Your task to perform on an android device: What's on the menu at Chick-fil-A? Image 0: 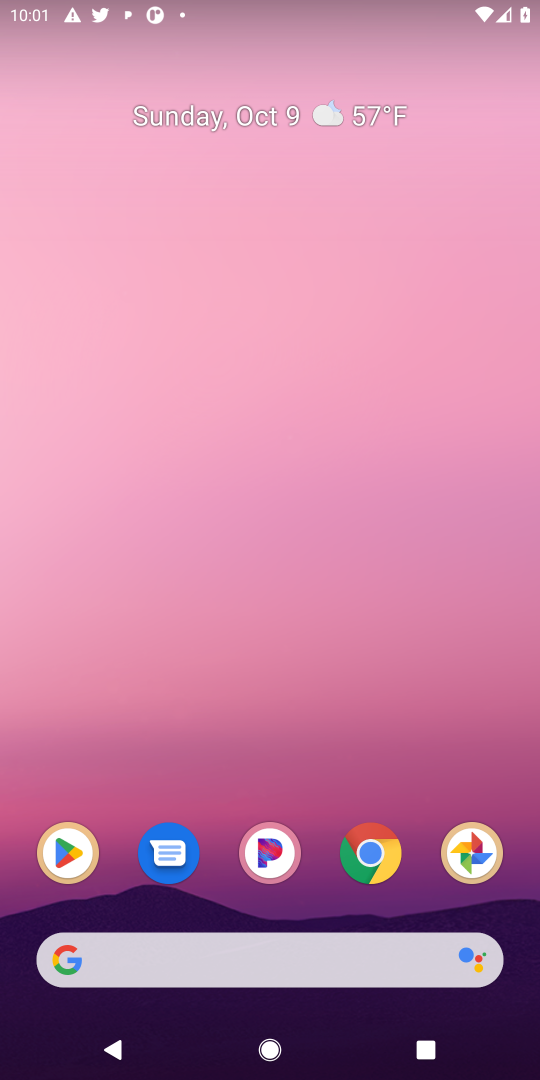
Step 0: click (369, 837)
Your task to perform on an android device: What's on the menu at Chick-fil-A? Image 1: 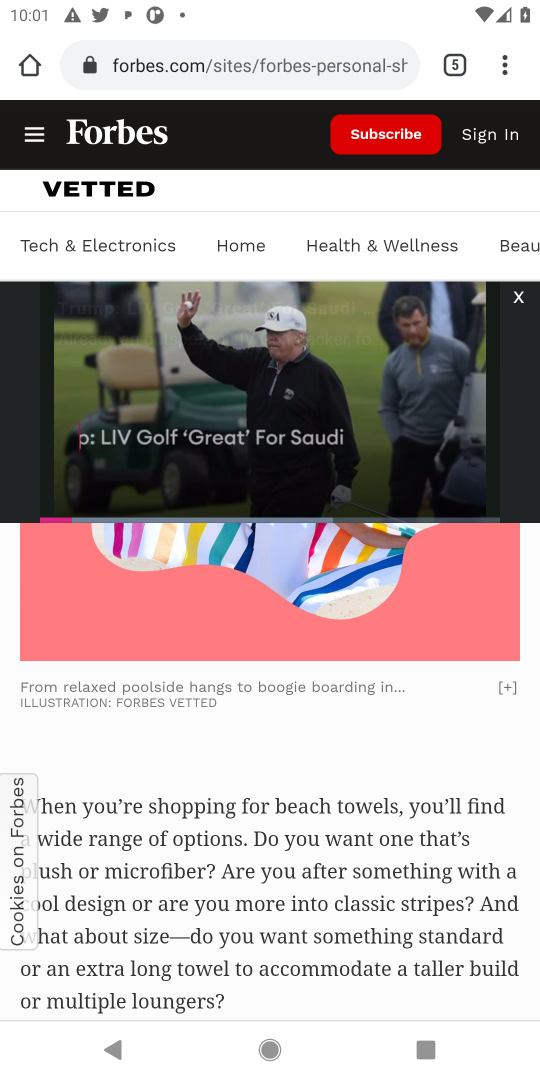
Step 1: click (266, 56)
Your task to perform on an android device: What's on the menu at Chick-fil-A? Image 2: 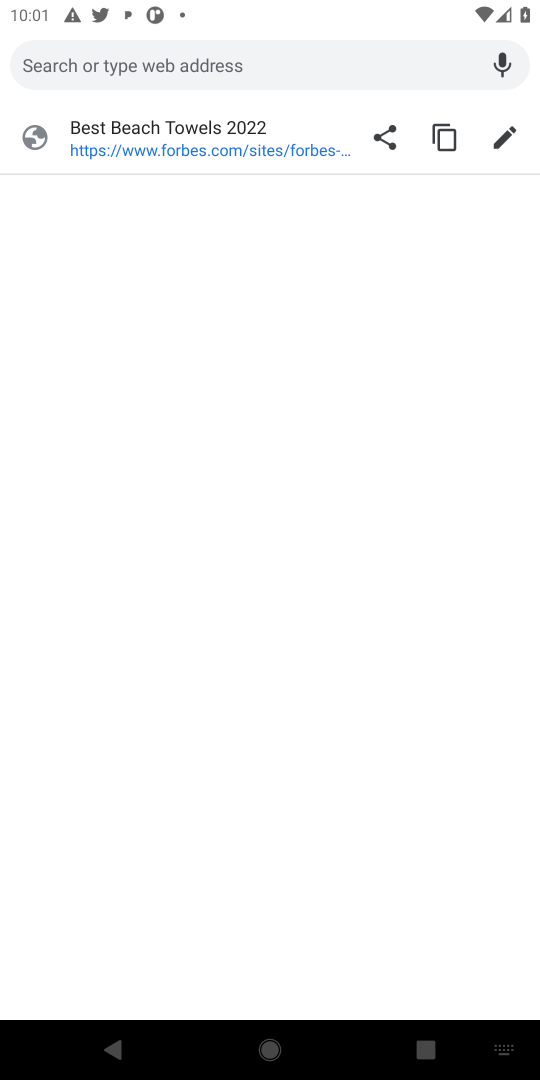
Step 2: type "What's on the menu at Chick-fil-A?"
Your task to perform on an android device: What's on the menu at Chick-fil-A? Image 3: 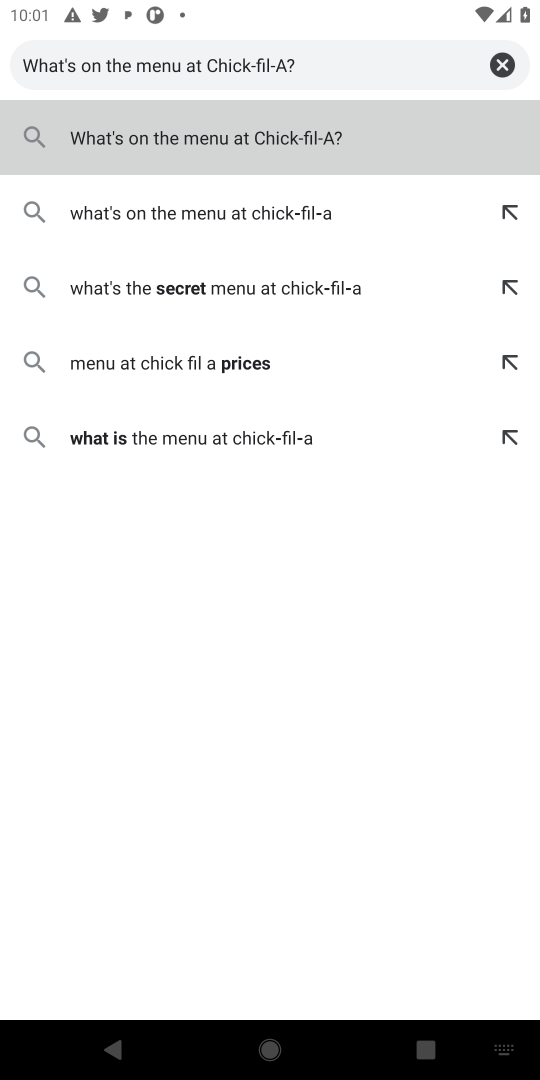
Step 3: type ""
Your task to perform on an android device: What's on the menu at Chick-fil-A? Image 4: 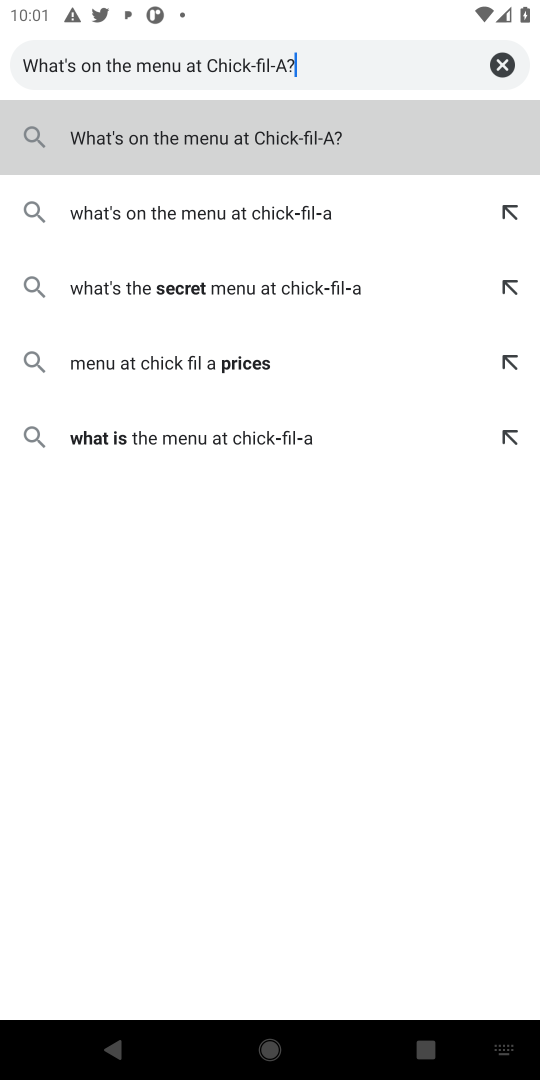
Step 4: press enter
Your task to perform on an android device: What's on the menu at Chick-fil-A? Image 5: 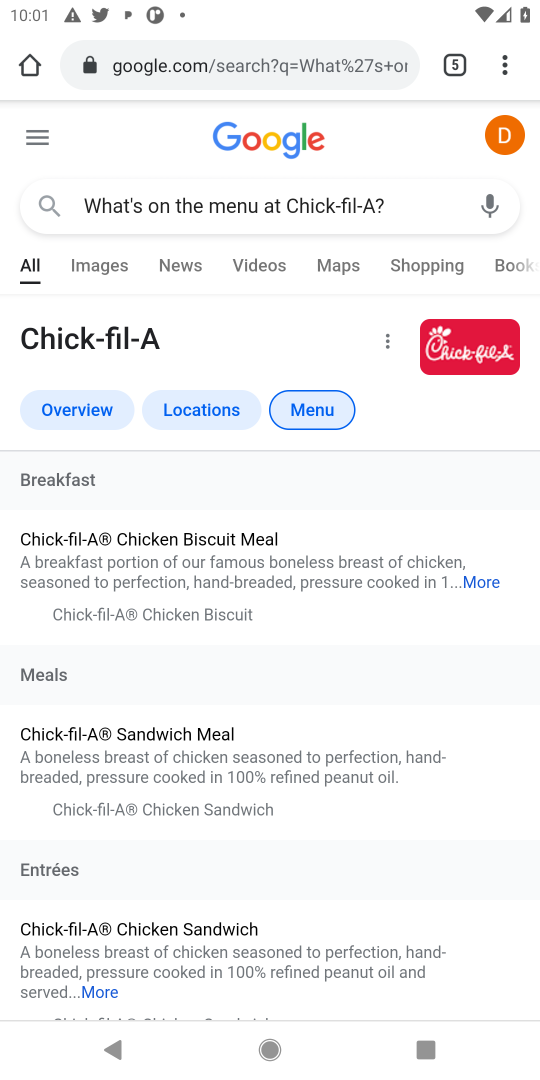
Step 5: drag from (185, 725) to (160, 414)
Your task to perform on an android device: What's on the menu at Chick-fil-A? Image 6: 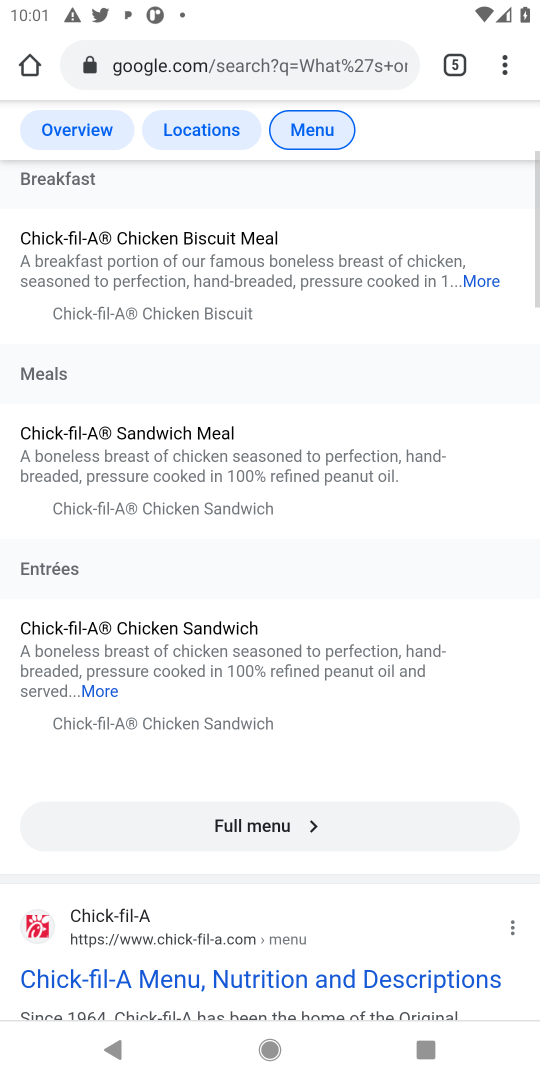
Step 6: drag from (205, 688) to (216, 490)
Your task to perform on an android device: What's on the menu at Chick-fil-A? Image 7: 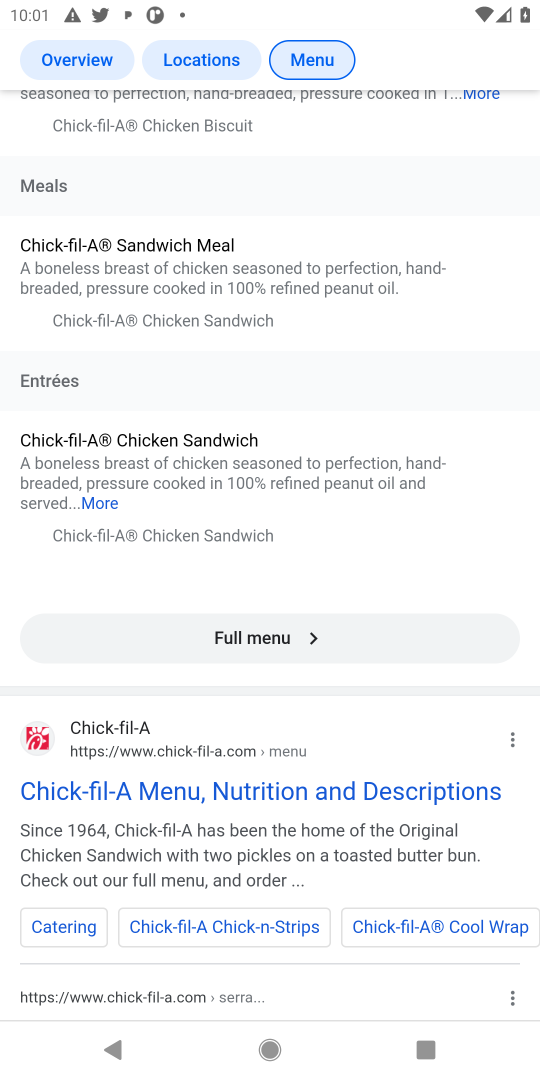
Step 7: click (238, 656)
Your task to perform on an android device: What's on the menu at Chick-fil-A? Image 8: 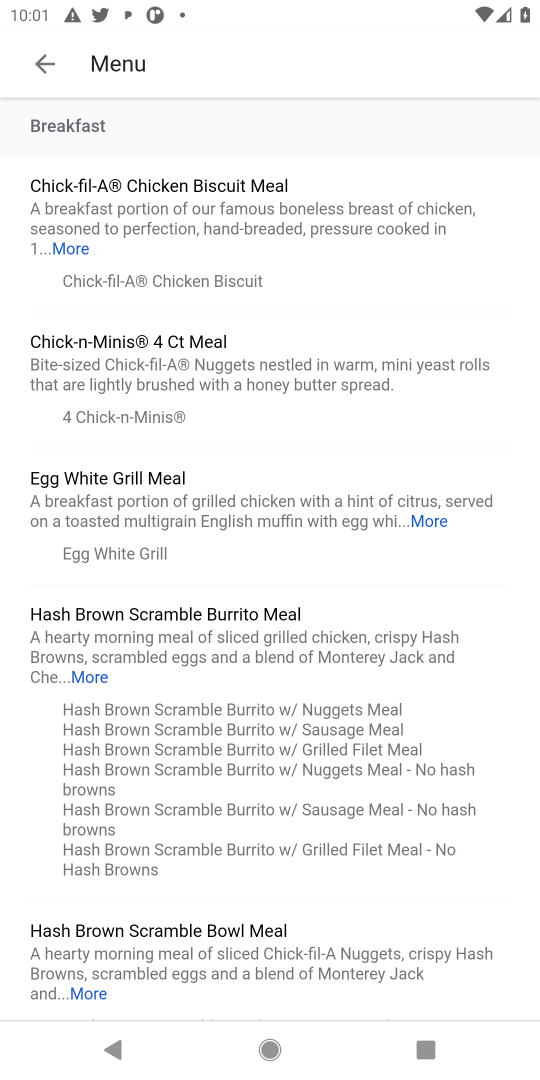
Step 8: drag from (266, 685) to (247, 283)
Your task to perform on an android device: What's on the menu at Chick-fil-A? Image 9: 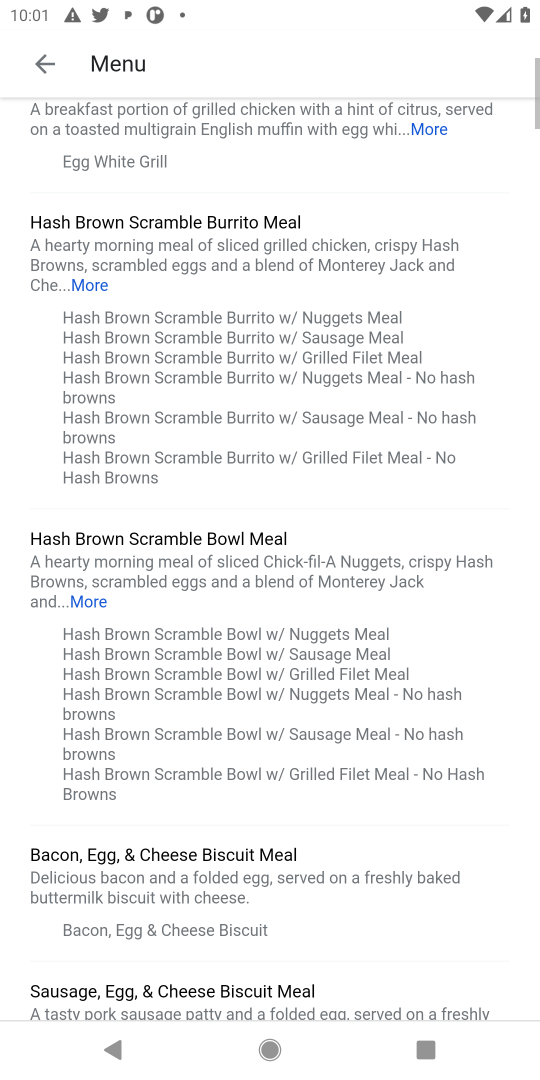
Step 9: drag from (351, 493) to (376, 319)
Your task to perform on an android device: What's on the menu at Chick-fil-A? Image 10: 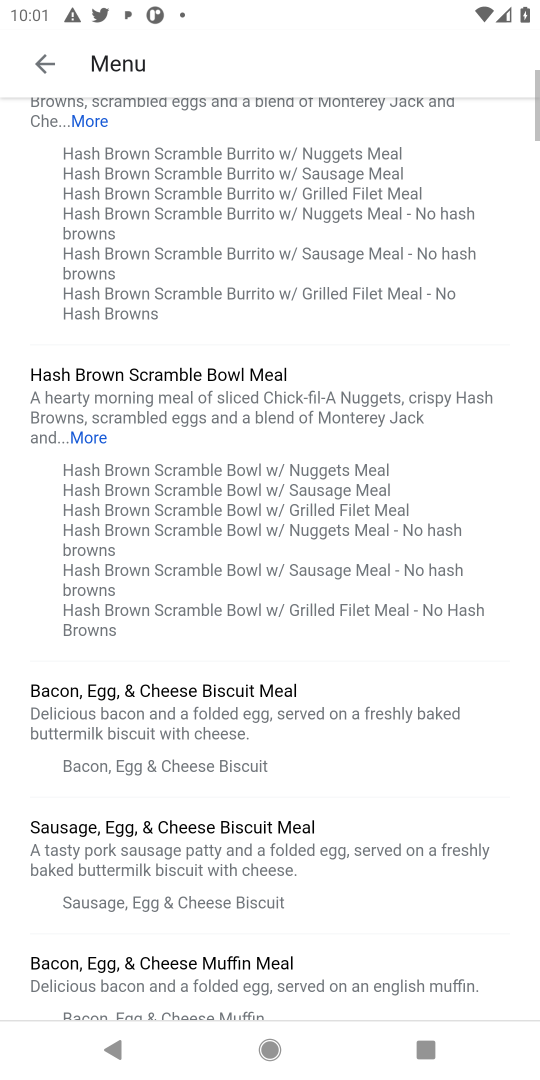
Step 10: drag from (357, 541) to (345, 370)
Your task to perform on an android device: What's on the menu at Chick-fil-A? Image 11: 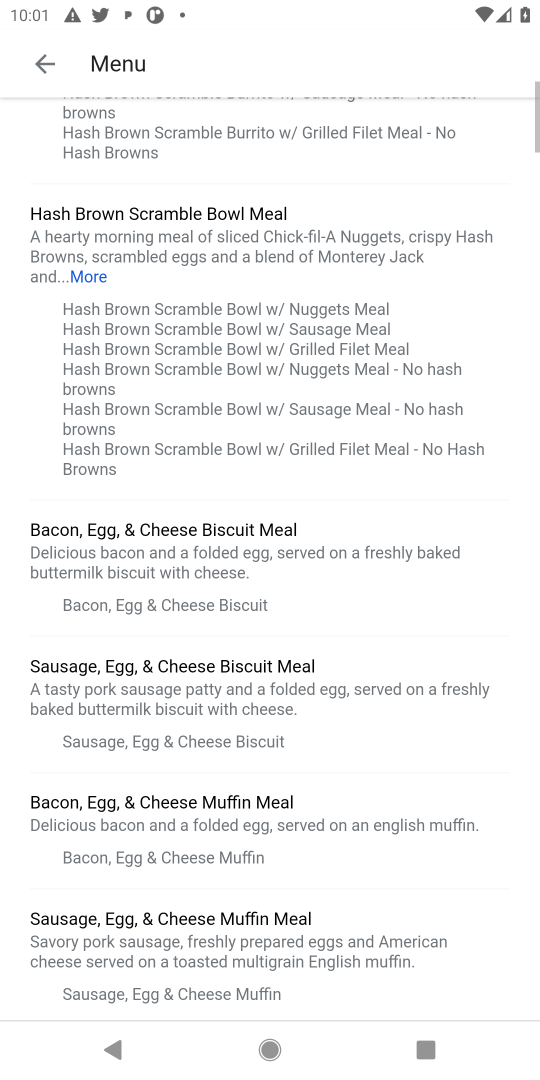
Step 11: drag from (331, 713) to (313, 435)
Your task to perform on an android device: What's on the menu at Chick-fil-A? Image 12: 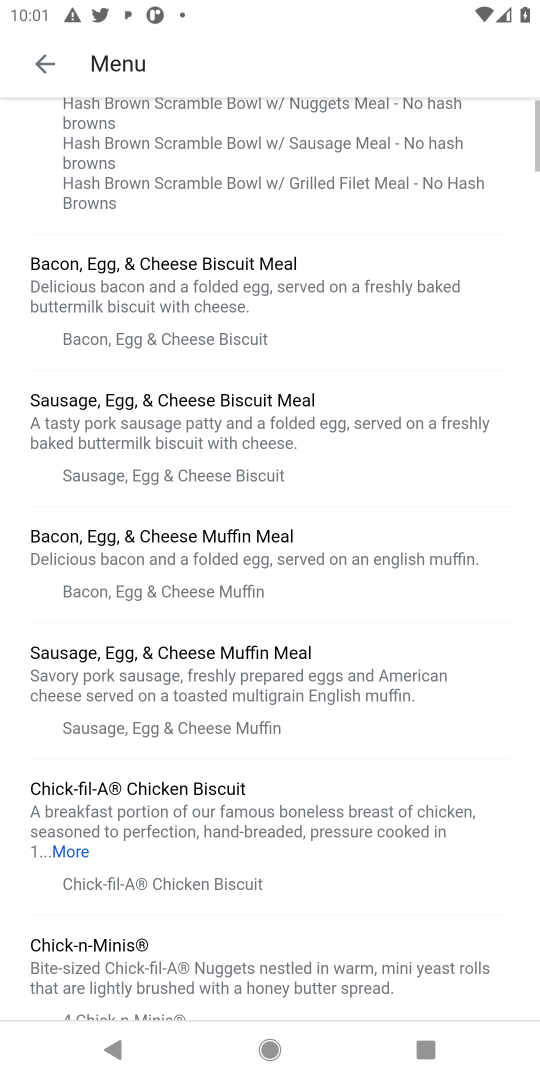
Step 12: drag from (316, 719) to (335, 482)
Your task to perform on an android device: What's on the menu at Chick-fil-A? Image 13: 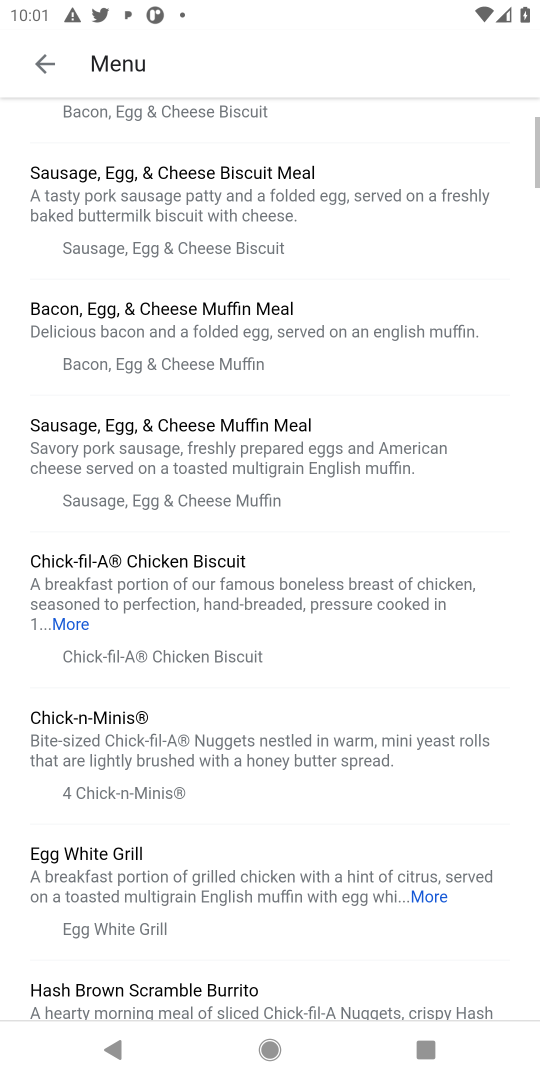
Step 13: drag from (309, 703) to (284, 255)
Your task to perform on an android device: What's on the menu at Chick-fil-A? Image 14: 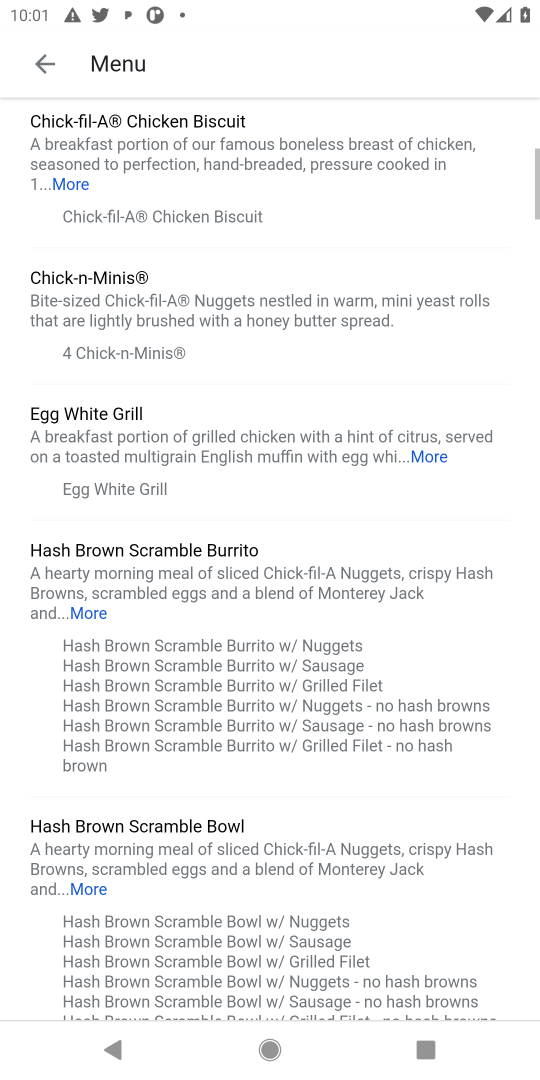
Step 14: drag from (349, 668) to (325, 492)
Your task to perform on an android device: What's on the menu at Chick-fil-A? Image 15: 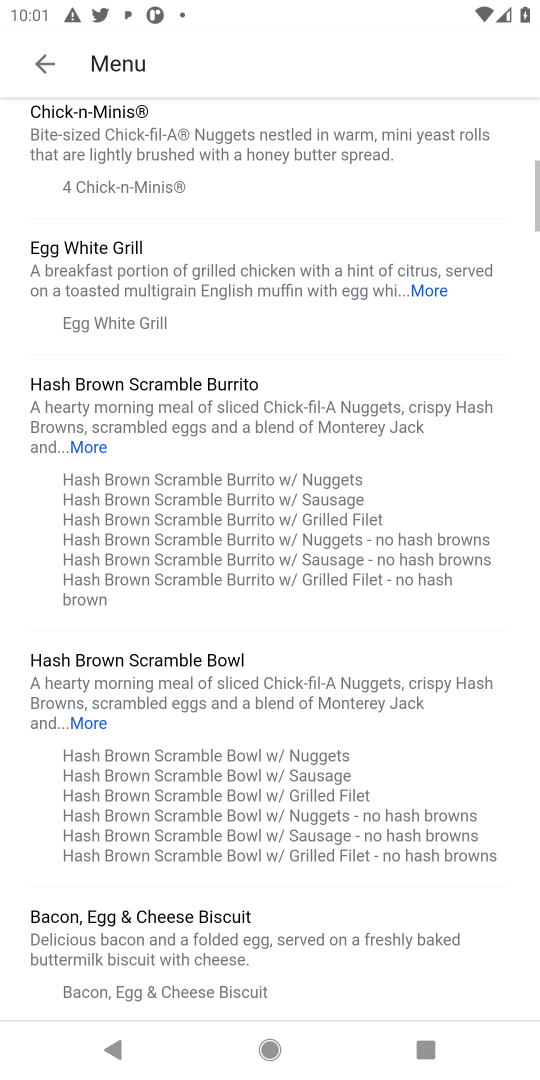
Step 15: drag from (293, 611) to (288, 412)
Your task to perform on an android device: What's on the menu at Chick-fil-A? Image 16: 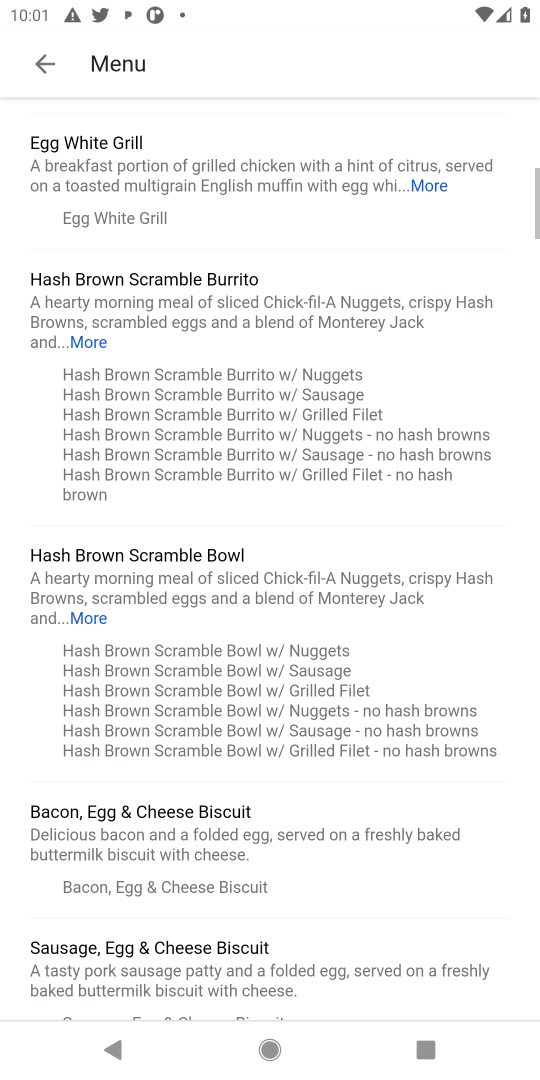
Step 16: drag from (271, 604) to (246, 405)
Your task to perform on an android device: What's on the menu at Chick-fil-A? Image 17: 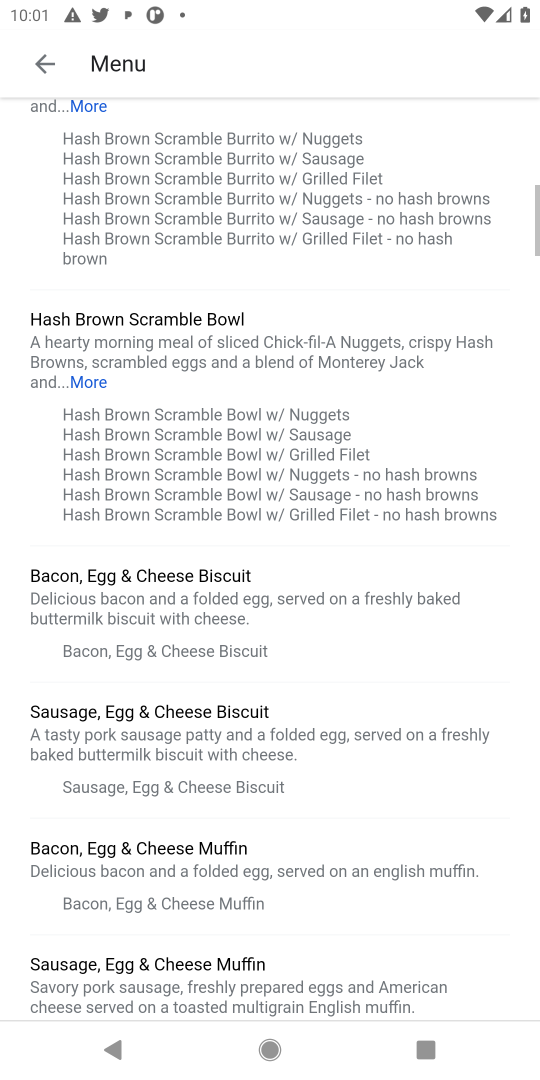
Step 17: drag from (270, 587) to (237, 398)
Your task to perform on an android device: What's on the menu at Chick-fil-A? Image 18: 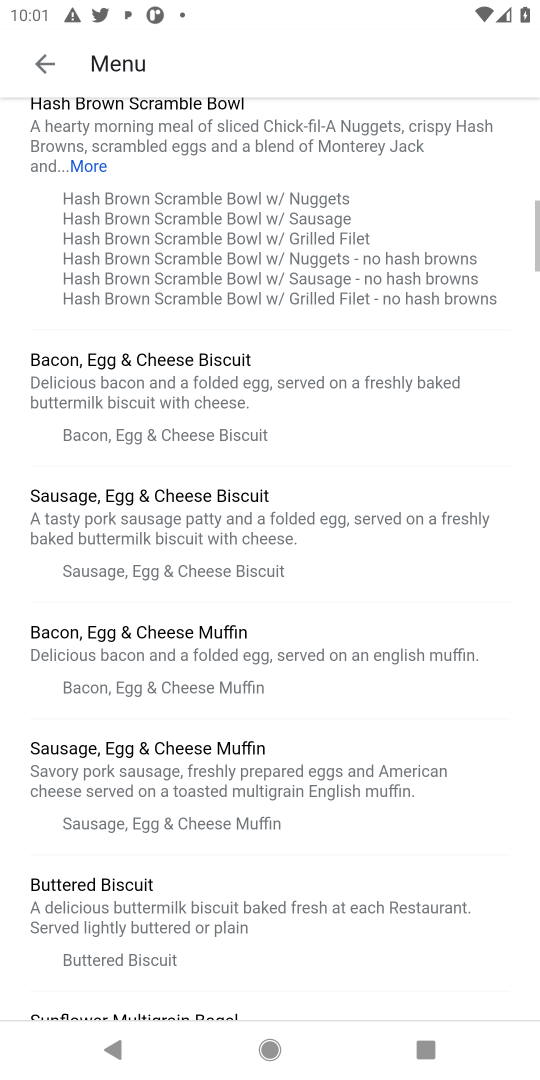
Step 18: drag from (249, 518) to (223, 371)
Your task to perform on an android device: What's on the menu at Chick-fil-A? Image 19: 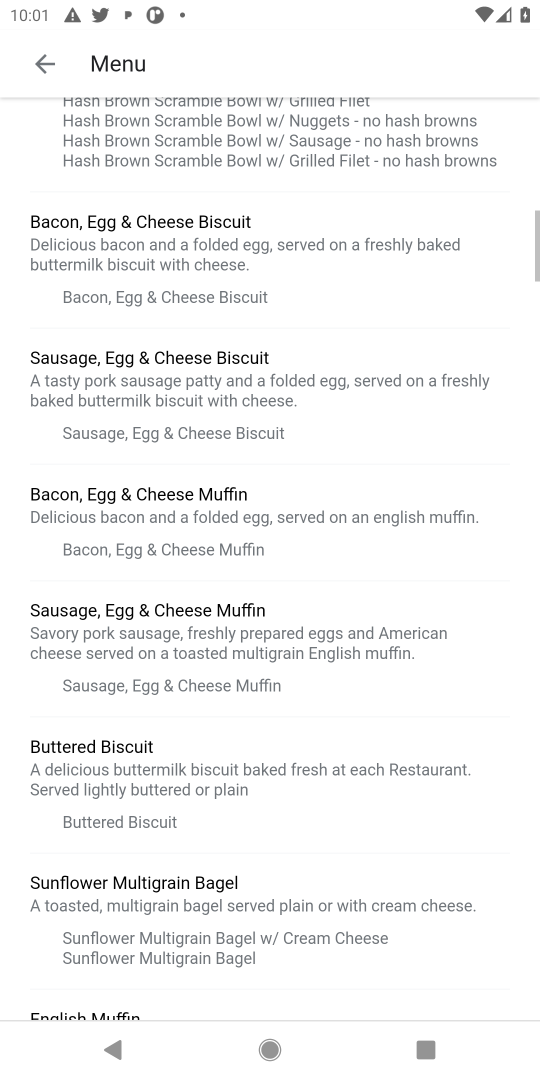
Step 19: drag from (280, 552) to (267, 301)
Your task to perform on an android device: What's on the menu at Chick-fil-A? Image 20: 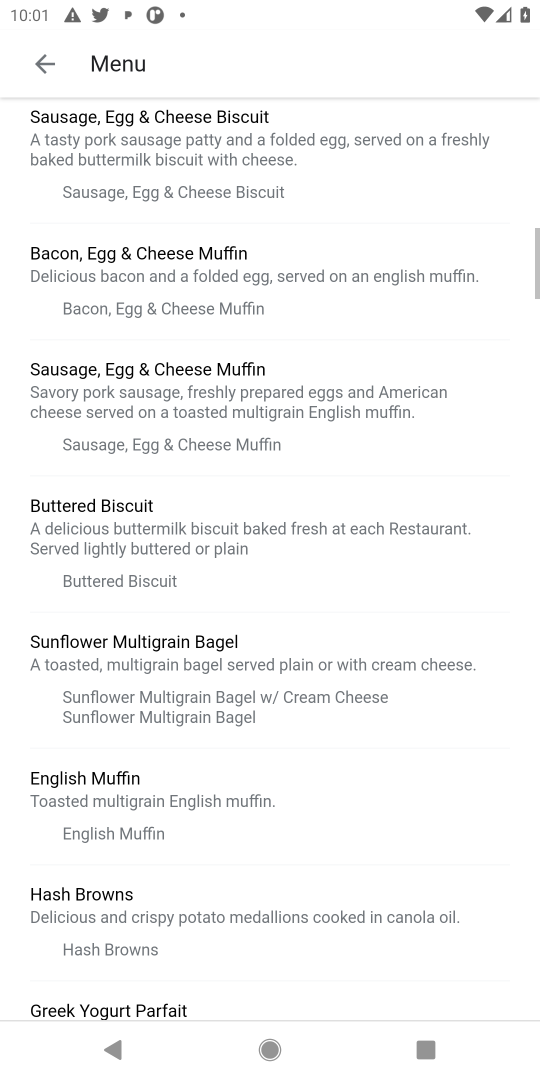
Step 20: drag from (409, 544) to (372, 388)
Your task to perform on an android device: What's on the menu at Chick-fil-A? Image 21: 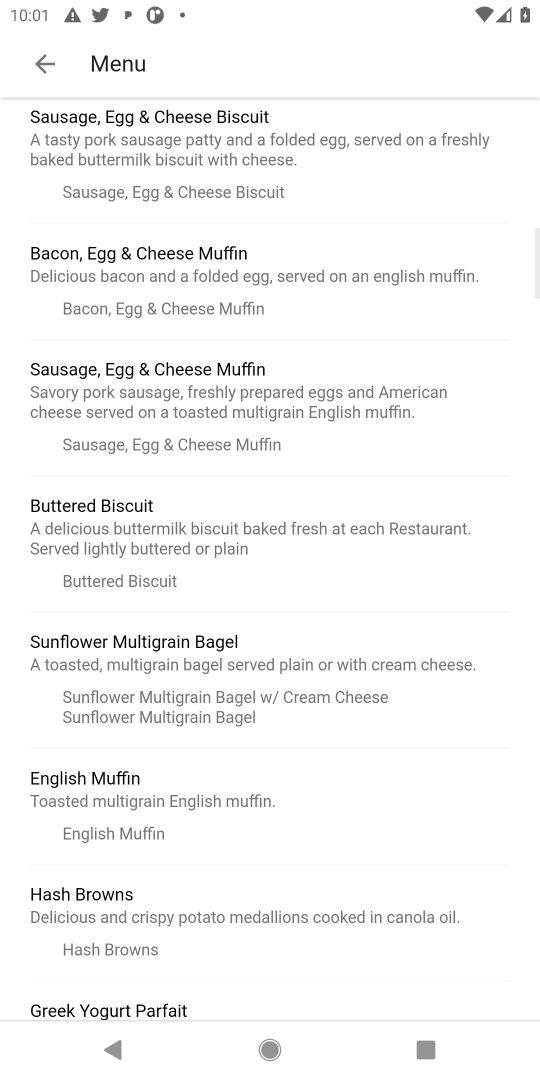
Step 21: drag from (377, 706) to (353, 379)
Your task to perform on an android device: What's on the menu at Chick-fil-A? Image 22: 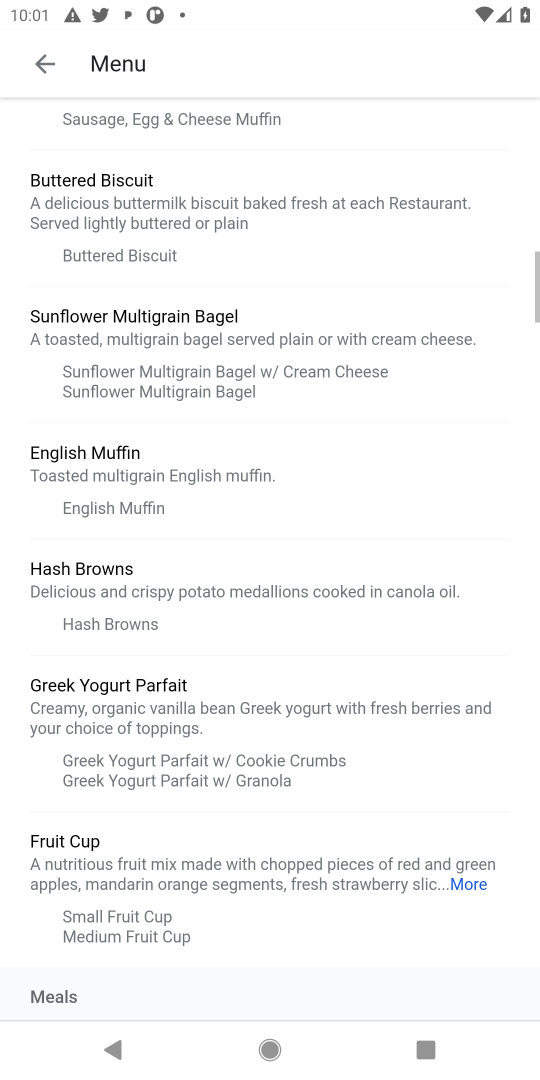
Step 22: drag from (427, 618) to (398, 392)
Your task to perform on an android device: What's on the menu at Chick-fil-A? Image 23: 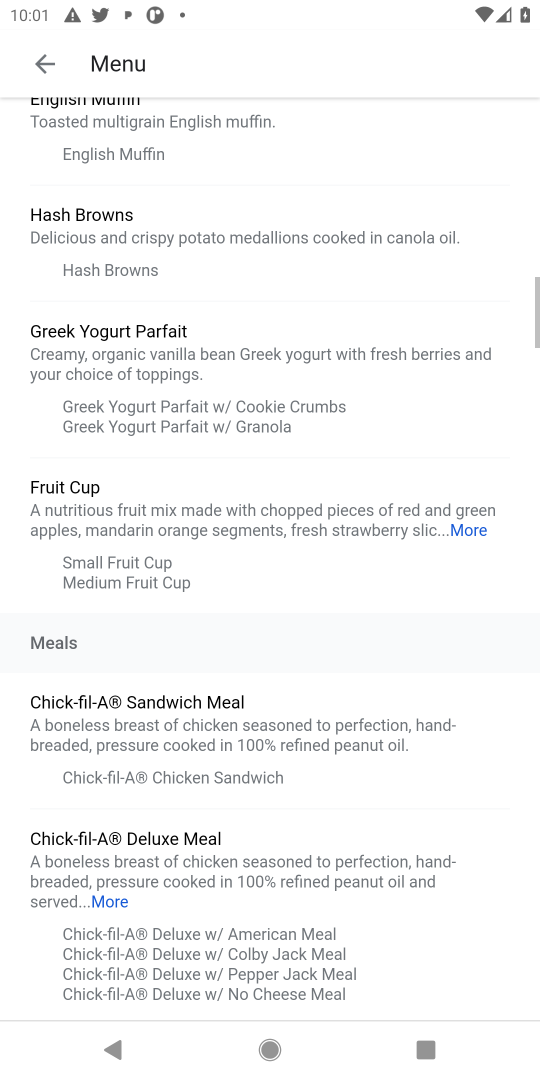
Step 23: drag from (489, 592) to (444, 322)
Your task to perform on an android device: What's on the menu at Chick-fil-A? Image 24: 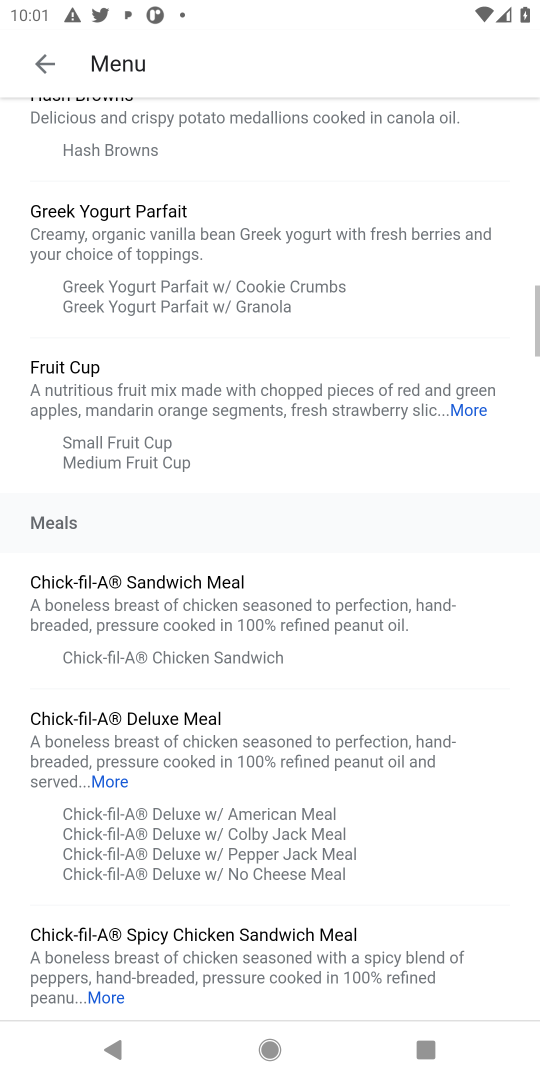
Step 24: drag from (333, 381) to (442, 843)
Your task to perform on an android device: What's on the menu at Chick-fil-A? Image 25: 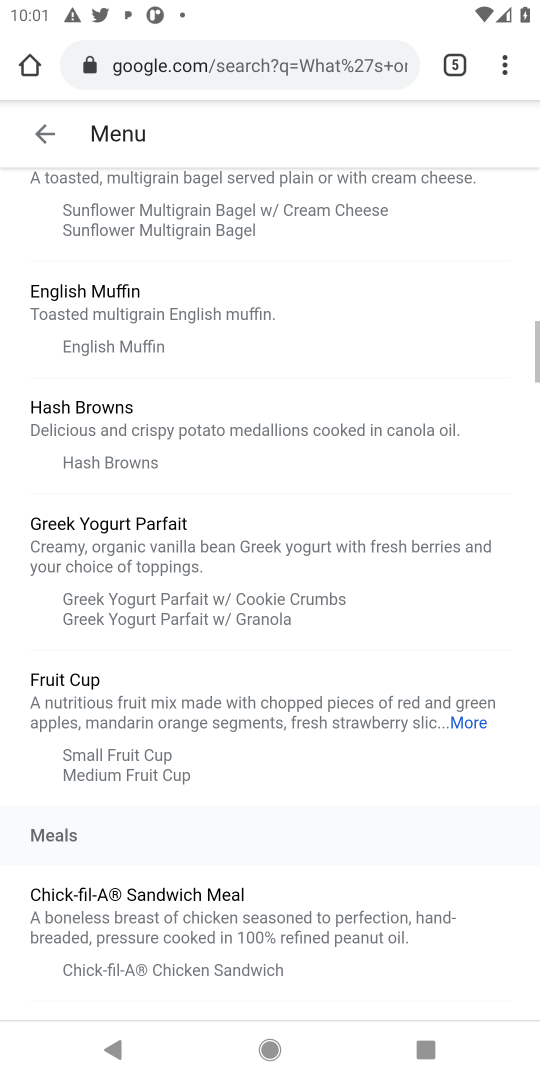
Step 25: drag from (316, 306) to (360, 645)
Your task to perform on an android device: What's on the menu at Chick-fil-A? Image 26: 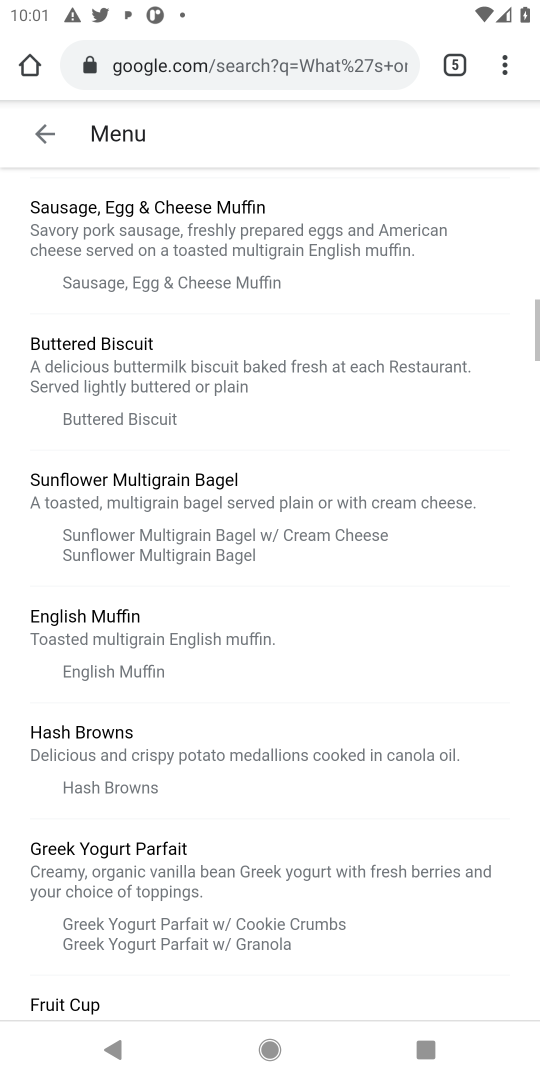
Step 26: drag from (277, 306) to (339, 659)
Your task to perform on an android device: What's on the menu at Chick-fil-A? Image 27: 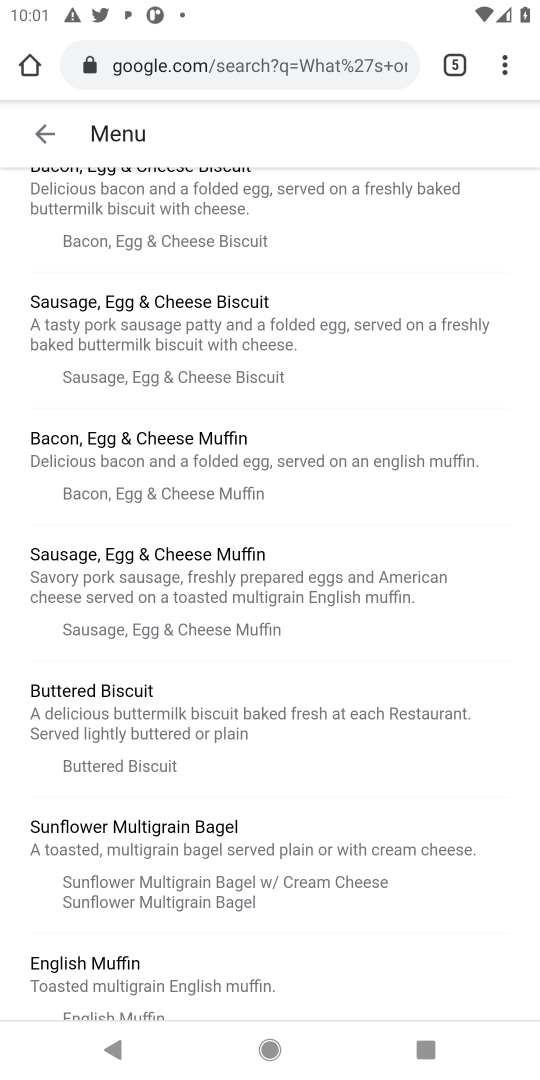
Step 27: drag from (256, 253) to (379, 661)
Your task to perform on an android device: What's on the menu at Chick-fil-A? Image 28: 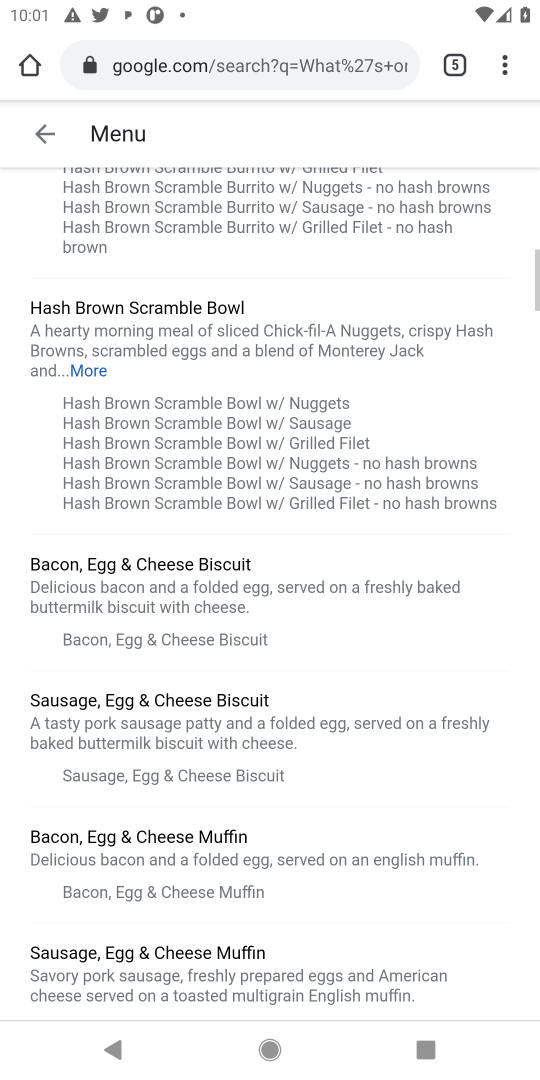
Step 28: drag from (220, 388) to (272, 632)
Your task to perform on an android device: What's on the menu at Chick-fil-A? Image 29: 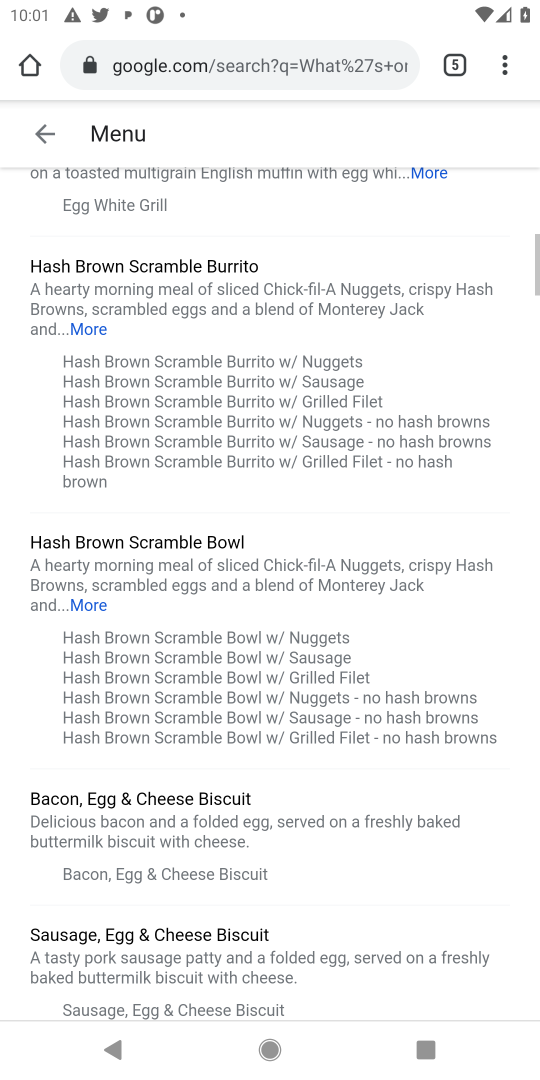
Step 29: drag from (216, 443) to (241, 587)
Your task to perform on an android device: What's on the menu at Chick-fil-A? Image 30: 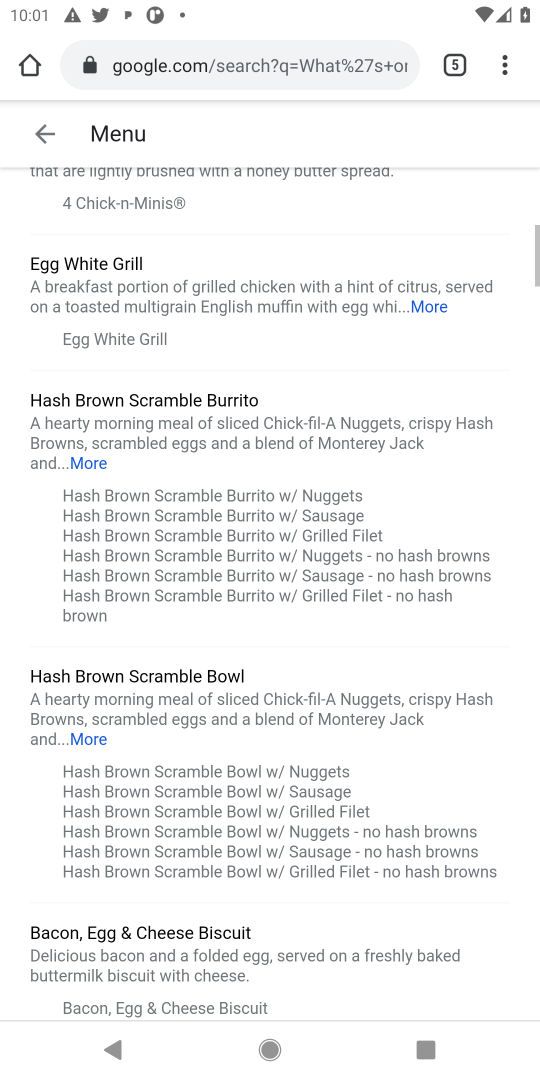
Step 30: drag from (241, 571) to (241, 628)
Your task to perform on an android device: What's on the menu at Chick-fil-A? Image 31: 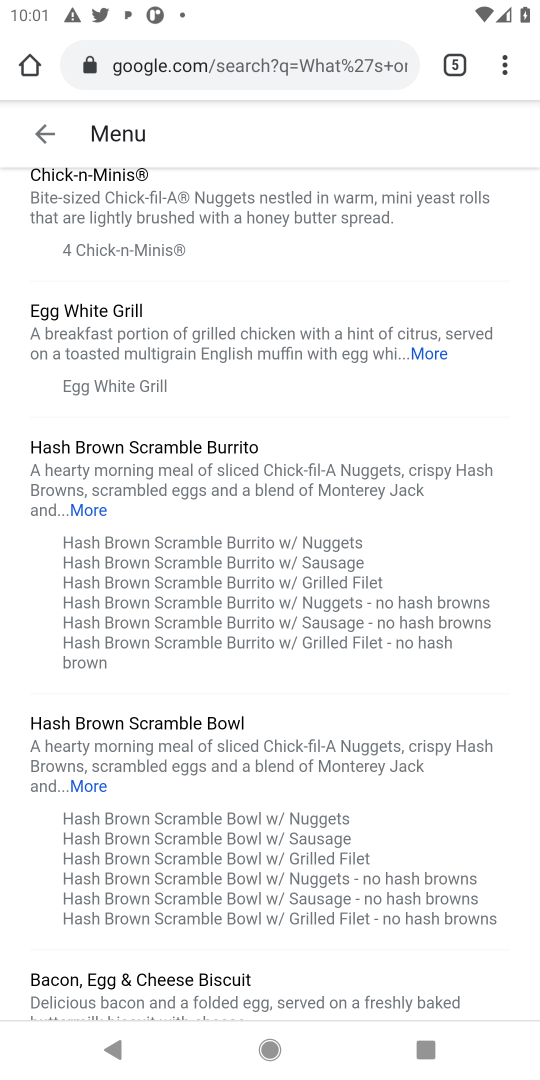
Step 31: click (299, 759)
Your task to perform on an android device: What's on the menu at Chick-fil-A? Image 32: 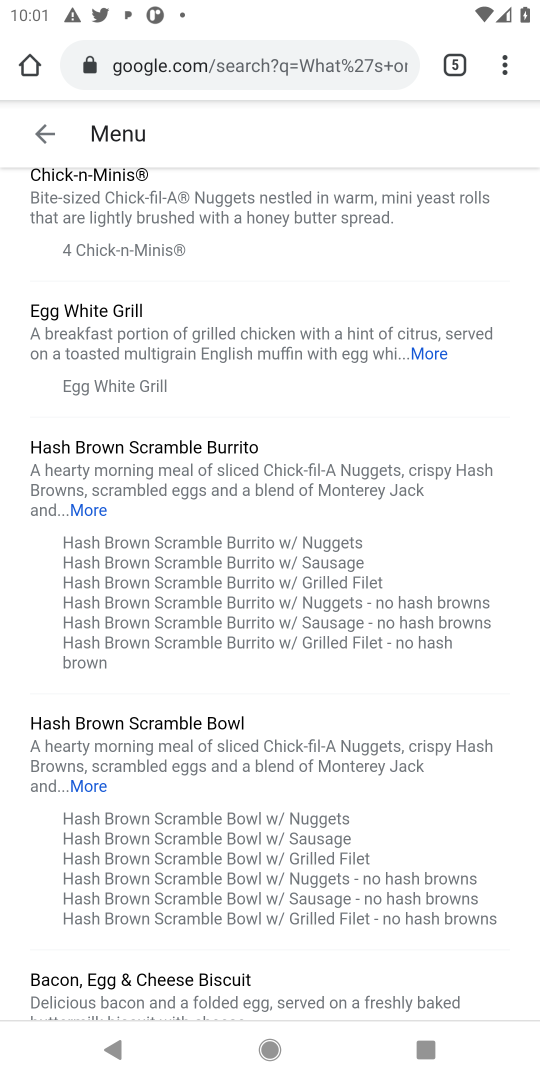
Step 32: drag from (244, 444) to (292, 712)
Your task to perform on an android device: What's on the menu at Chick-fil-A? Image 33: 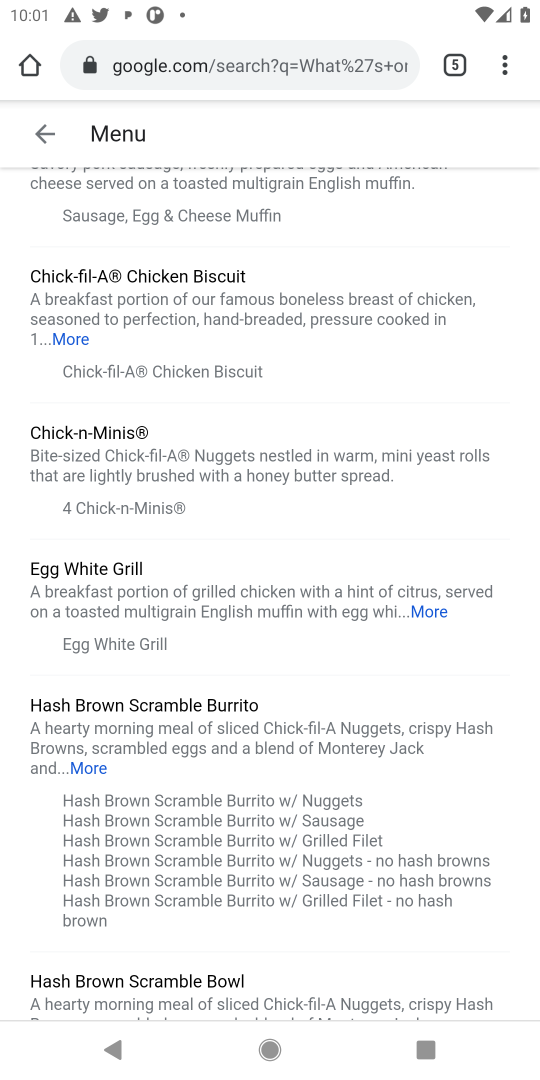
Step 33: drag from (203, 377) to (250, 764)
Your task to perform on an android device: What's on the menu at Chick-fil-A? Image 34: 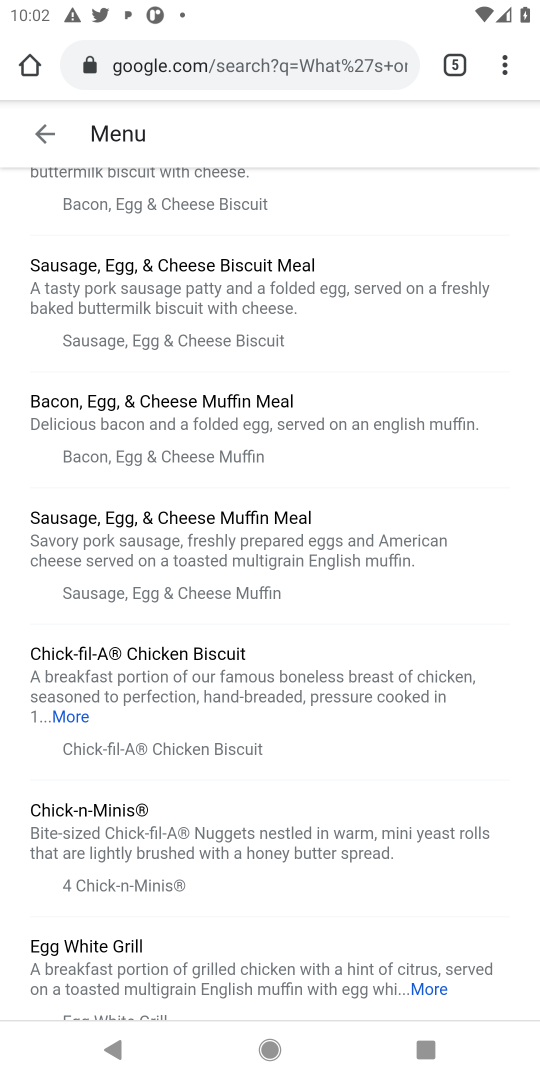
Step 34: drag from (149, 488) to (187, 760)
Your task to perform on an android device: What's on the menu at Chick-fil-A? Image 35: 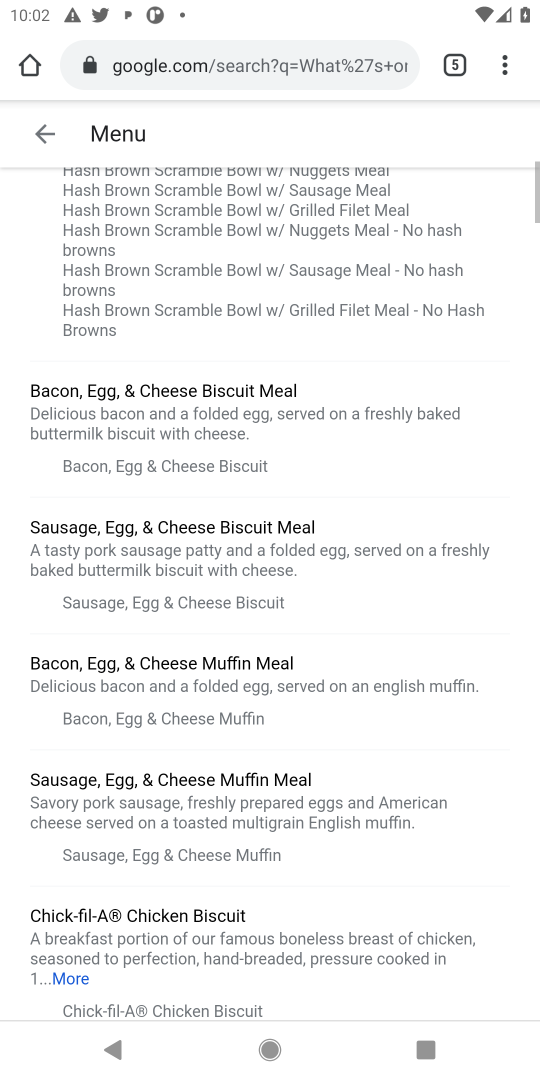
Step 35: drag from (157, 317) to (207, 512)
Your task to perform on an android device: What's on the menu at Chick-fil-A? Image 36: 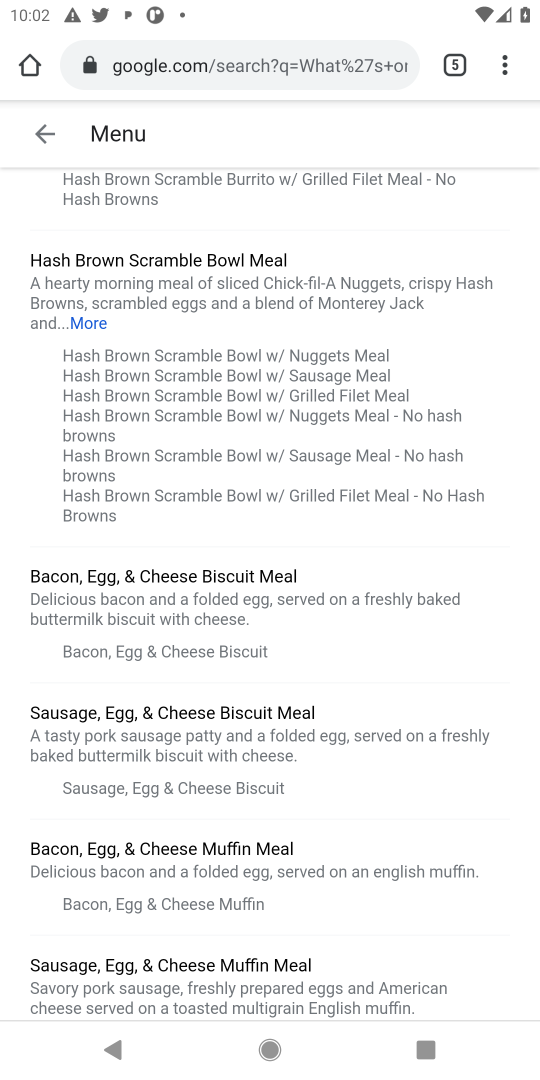
Step 36: drag from (241, 350) to (252, 657)
Your task to perform on an android device: What's on the menu at Chick-fil-A? Image 37: 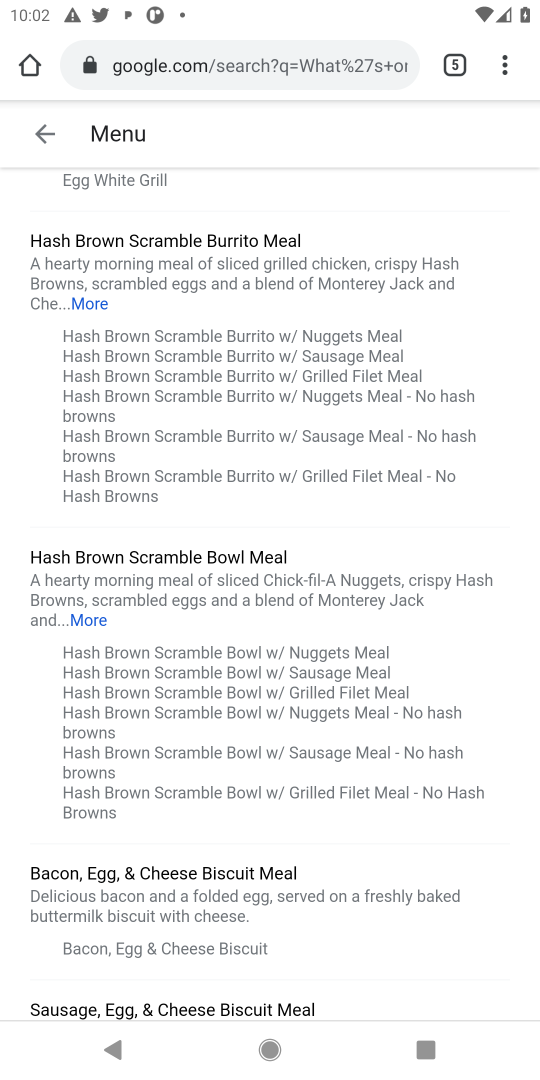
Step 37: click (89, 302)
Your task to perform on an android device: What's on the menu at Chick-fil-A? Image 38: 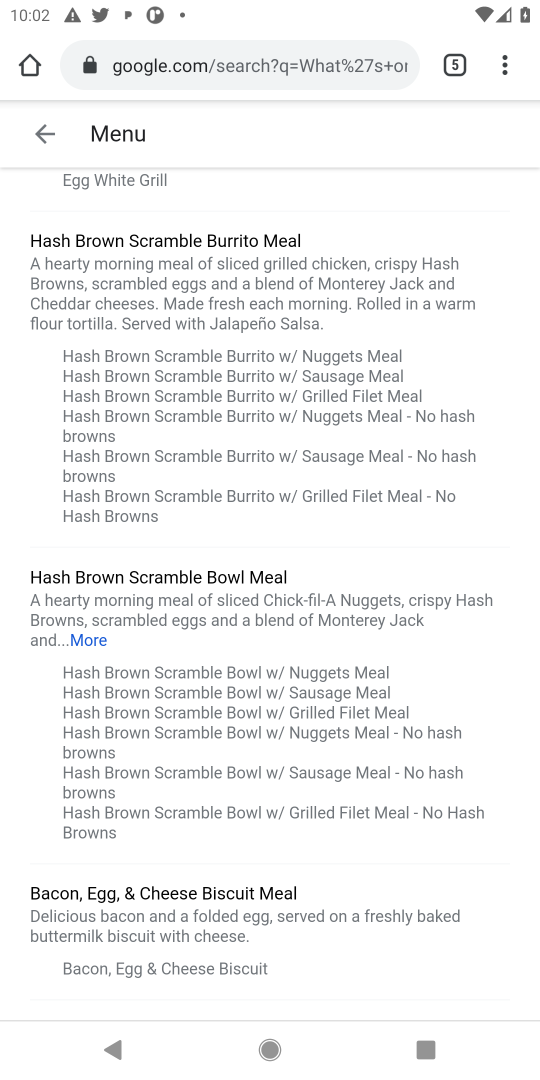
Step 38: drag from (183, 272) to (239, 498)
Your task to perform on an android device: What's on the menu at Chick-fil-A? Image 39: 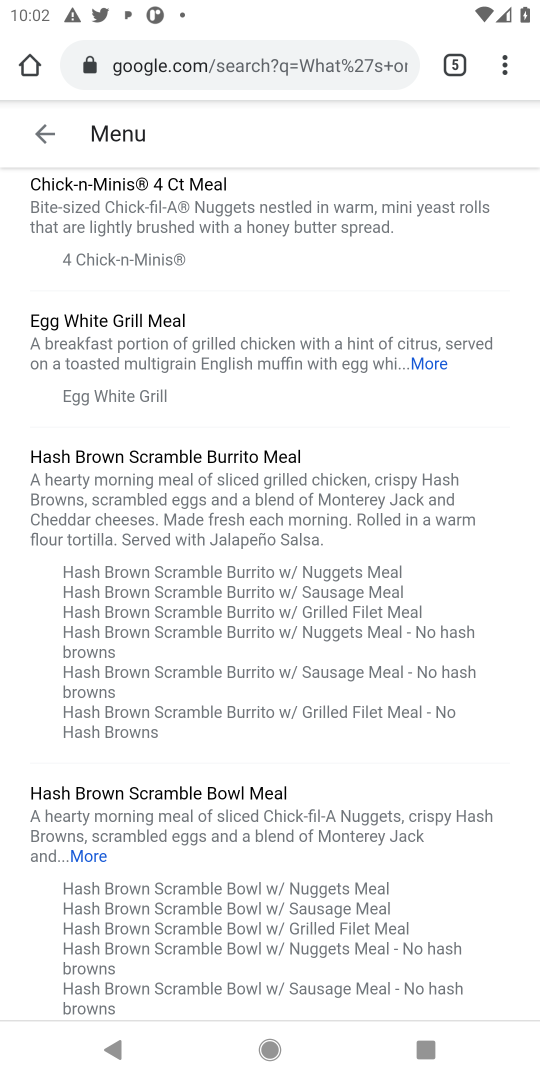
Step 39: press back button
Your task to perform on an android device: What's on the menu at Chick-fil-A? Image 40: 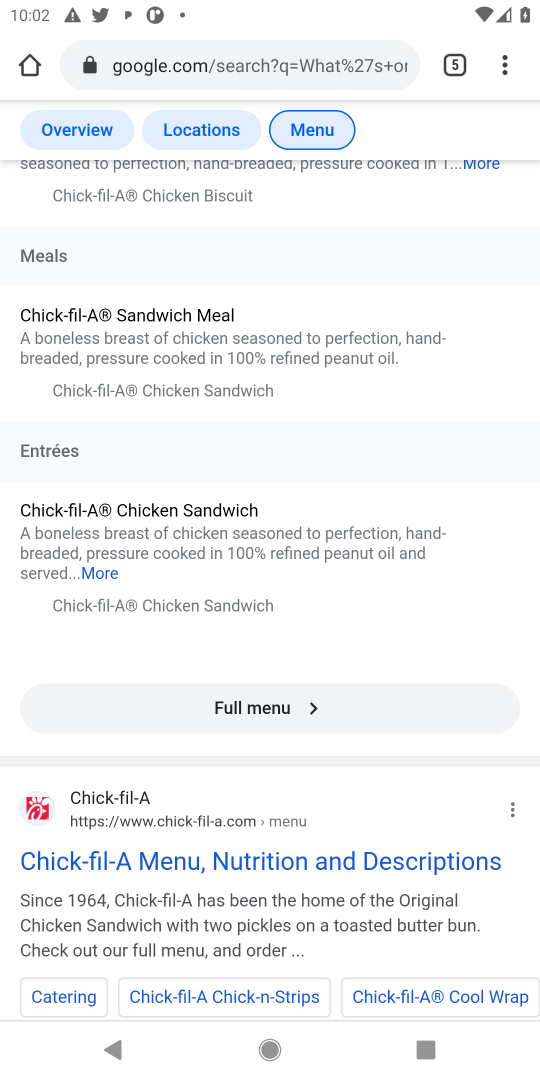
Step 40: click (402, 853)
Your task to perform on an android device: What's on the menu at Chick-fil-A? Image 41: 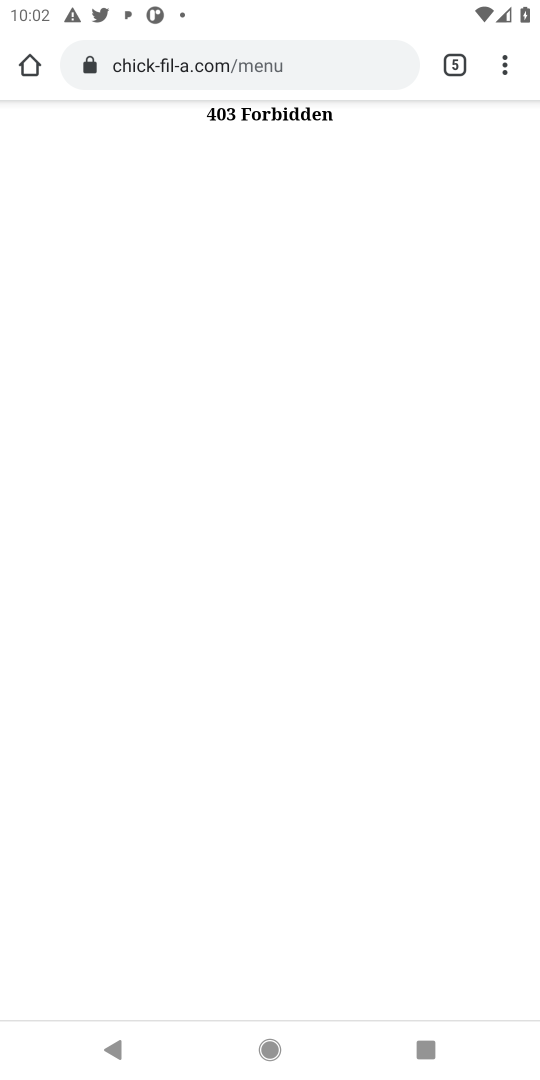
Step 41: press back button
Your task to perform on an android device: What's on the menu at Chick-fil-A? Image 42: 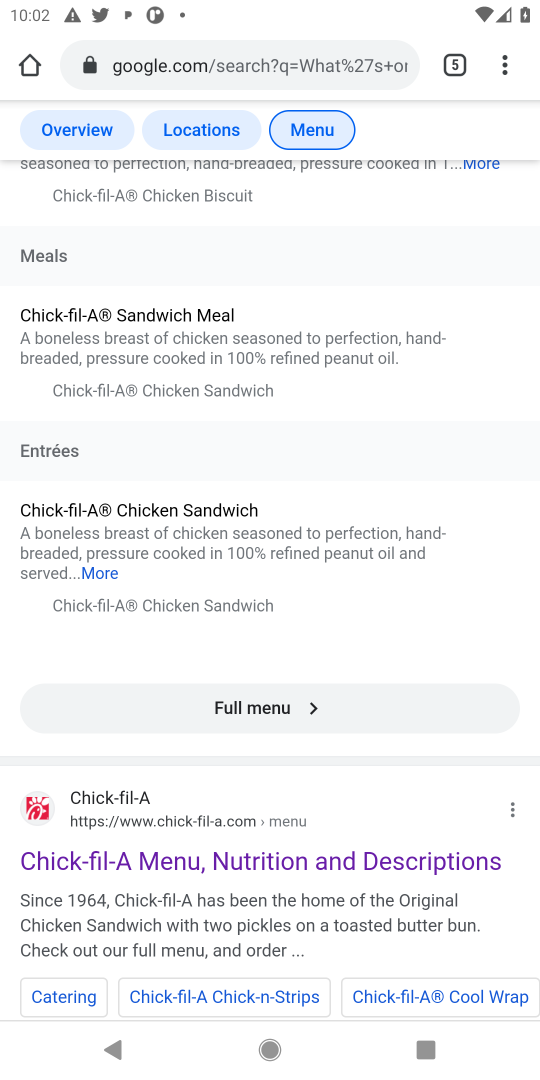
Step 42: drag from (232, 755) to (213, 289)
Your task to perform on an android device: What's on the menu at Chick-fil-A? Image 43: 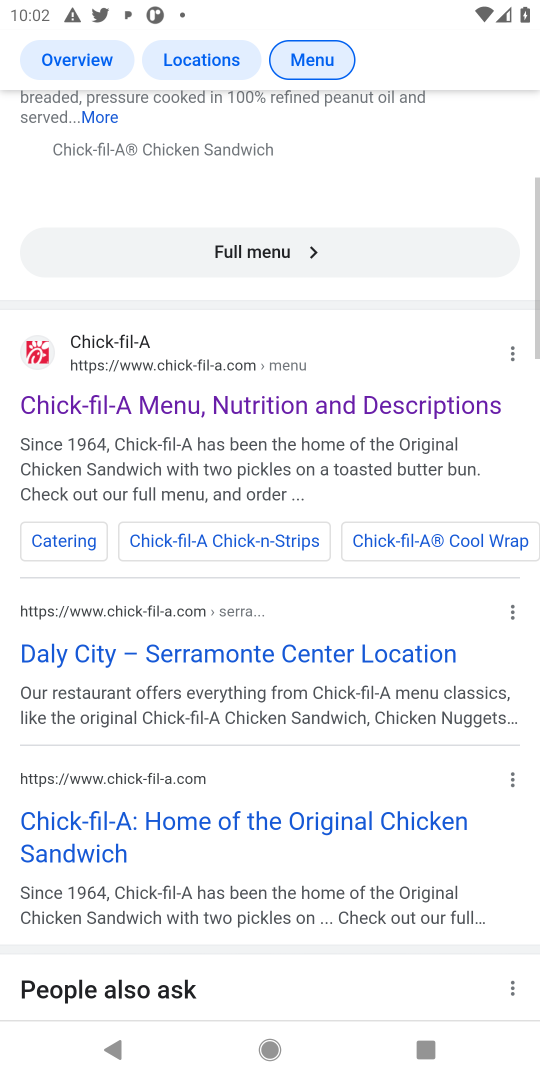
Step 43: drag from (324, 867) to (196, 303)
Your task to perform on an android device: What's on the menu at Chick-fil-A? Image 44: 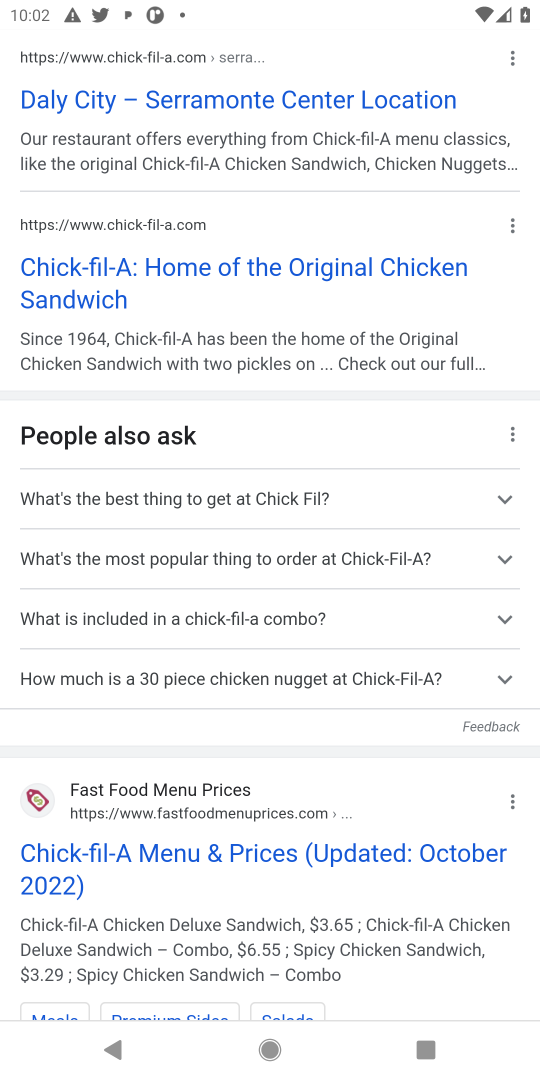
Step 44: click (117, 276)
Your task to perform on an android device: What's on the menu at Chick-fil-A? Image 45: 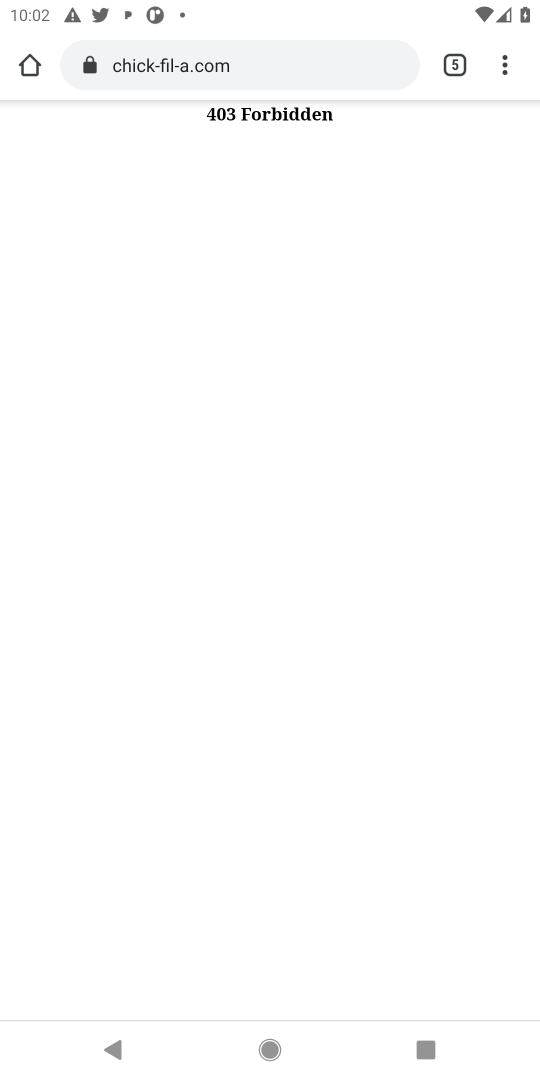
Step 45: press back button
Your task to perform on an android device: What's on the menu at Chick-fil-A? Image 46: 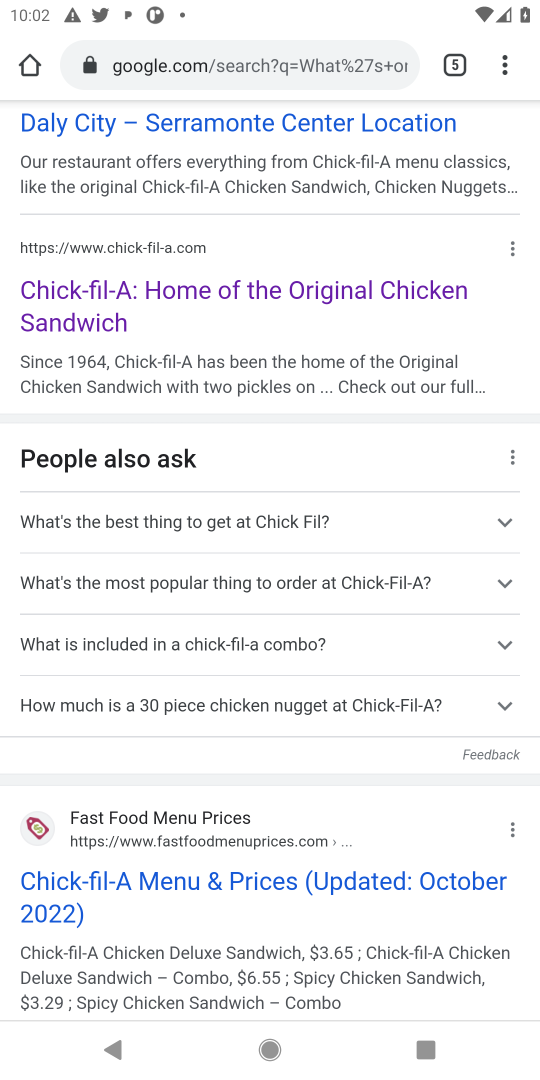
Step 46: drag from (212, 250) to (309, 804)
Your task to perform on an android device: What's on the menu at Chick-fil-A? Image 47: 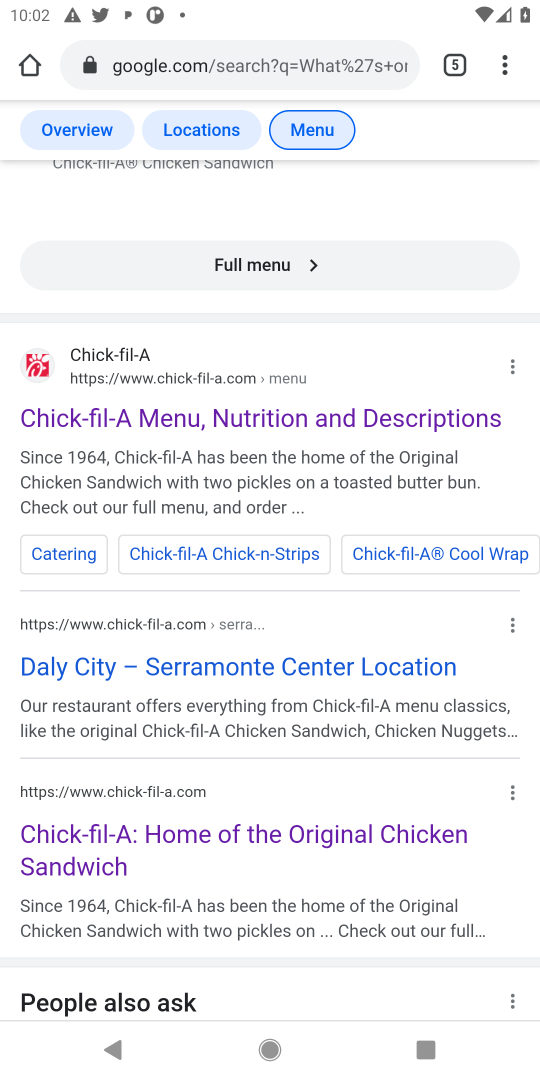
Step 47: drag from (199, 227) to (309, 884)
Your task to perform on an android device: What's on the menu at Chick-fil-A? Image 48: 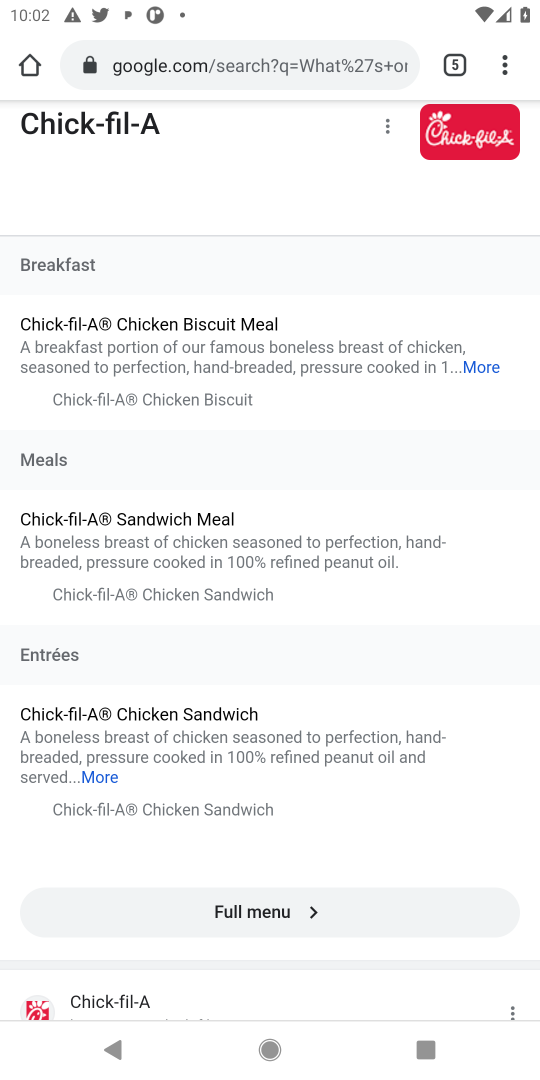
Step 48: click (289, 913)
Your task to perform on an android device: What's on the menu at Chick-fil-A? Image 49: 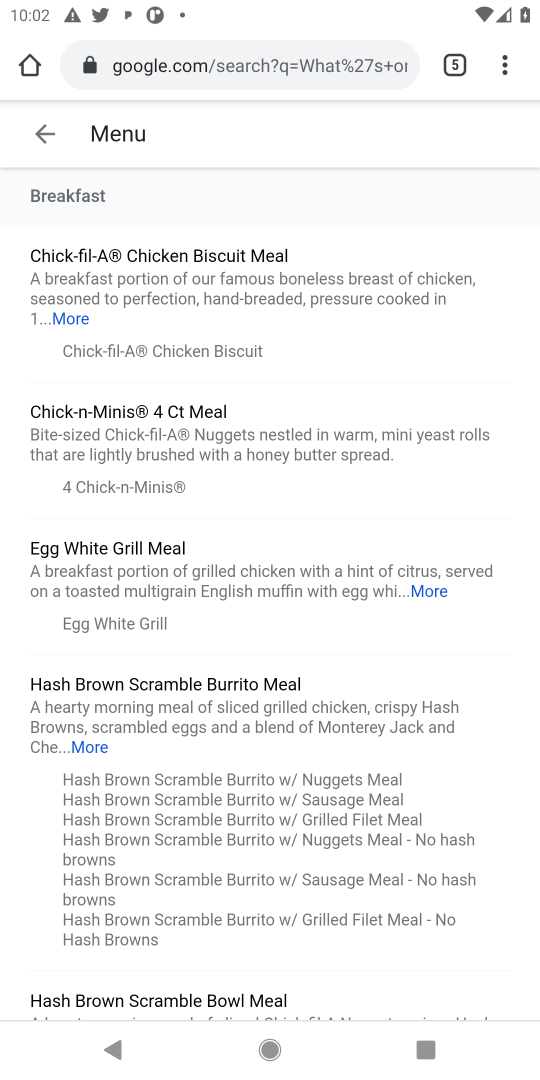
Step 49: click (401, 588)
Your task to perform on an android device: What's on the menu at Chick-fil-A? Image 50: 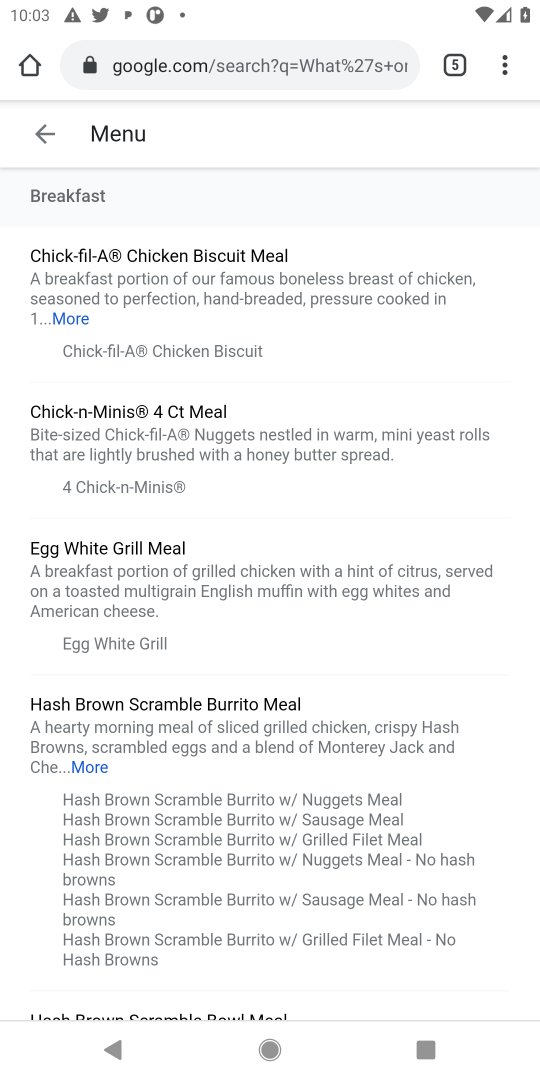
Step 50: drag from (357, 792) to (290, 503)
Your task to perform on an android device: What's on the menu at Chick-fil-A? Image 51: 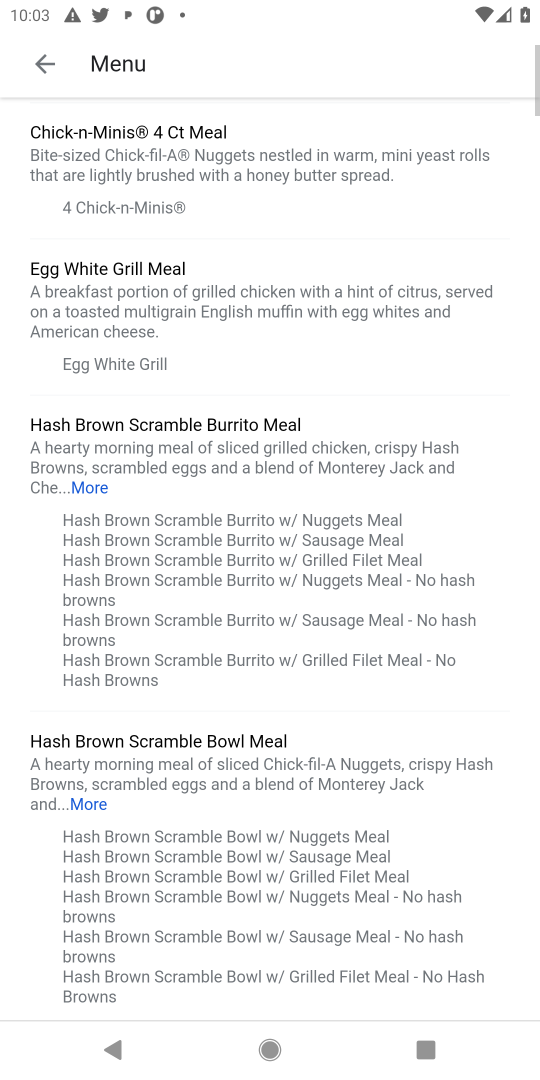
Step 51: drag from (274, 783) to (297, 475)
Your task to perform on an android device: What's on the menu at Chick-fil-A? Image 52: 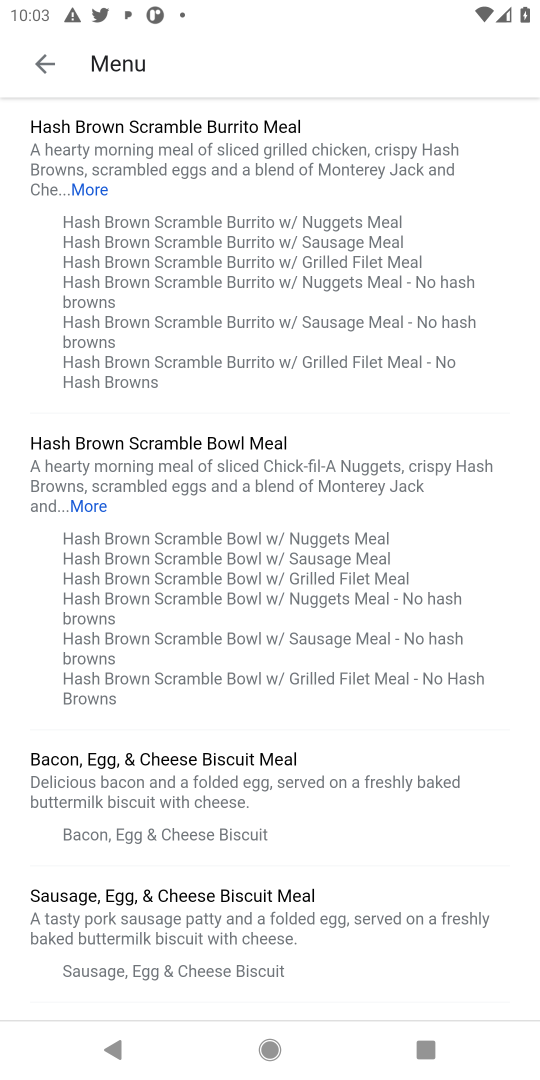
Step 52: drag from (260, 688) to (261, 465)
Your task to perform on an android device: What's on the menu at Chick-fil-A? Image 53: 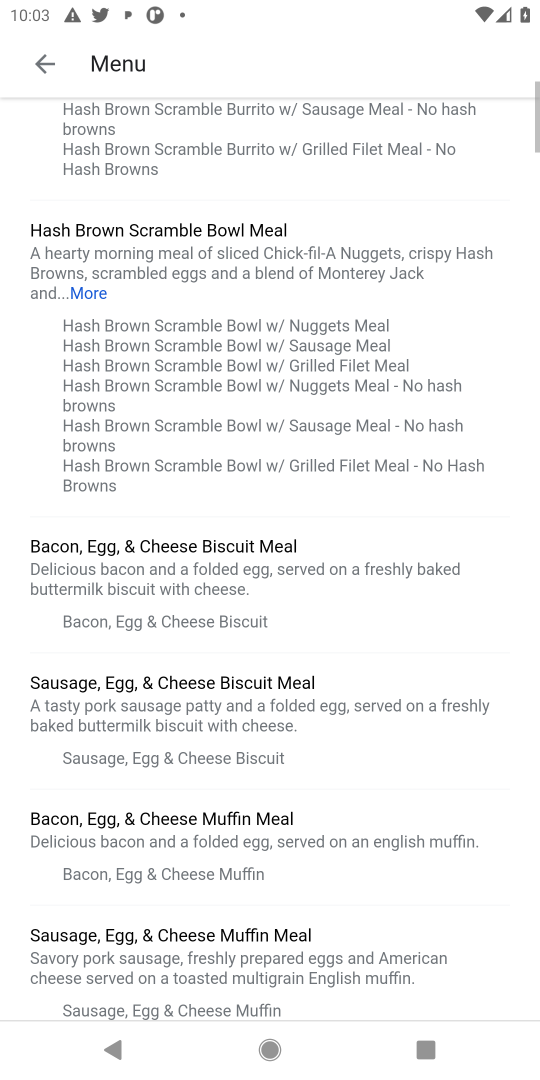
Step 53: click (312, 551)
Your task to perform on an android device: What's on the menu at Chick-fil-A? Image 54: 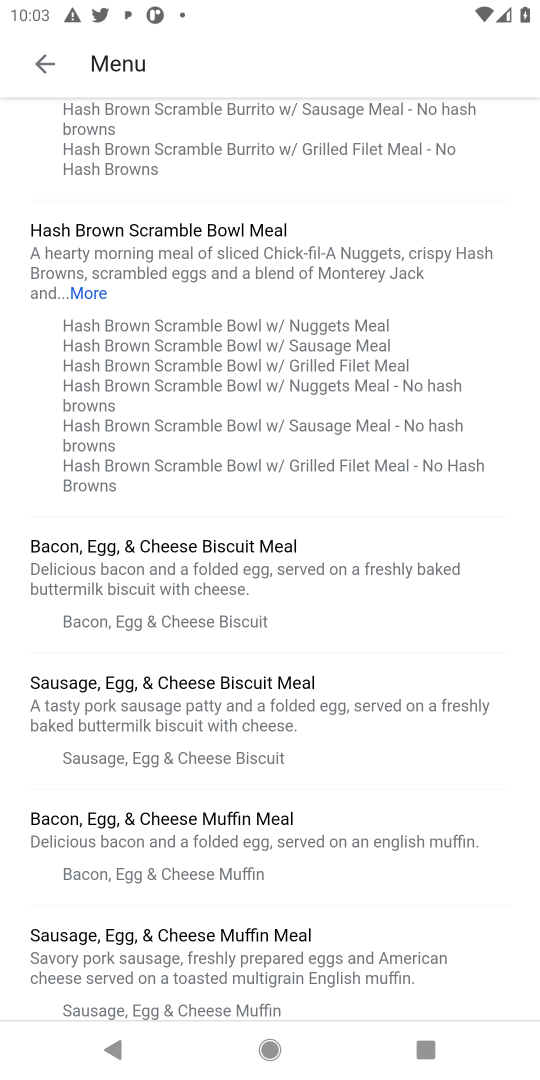
Step 54: drag from (235, 626) to (225, 304)
Your task to perform on an android device: What's on the menu at Chick-fil-A? Image 55: 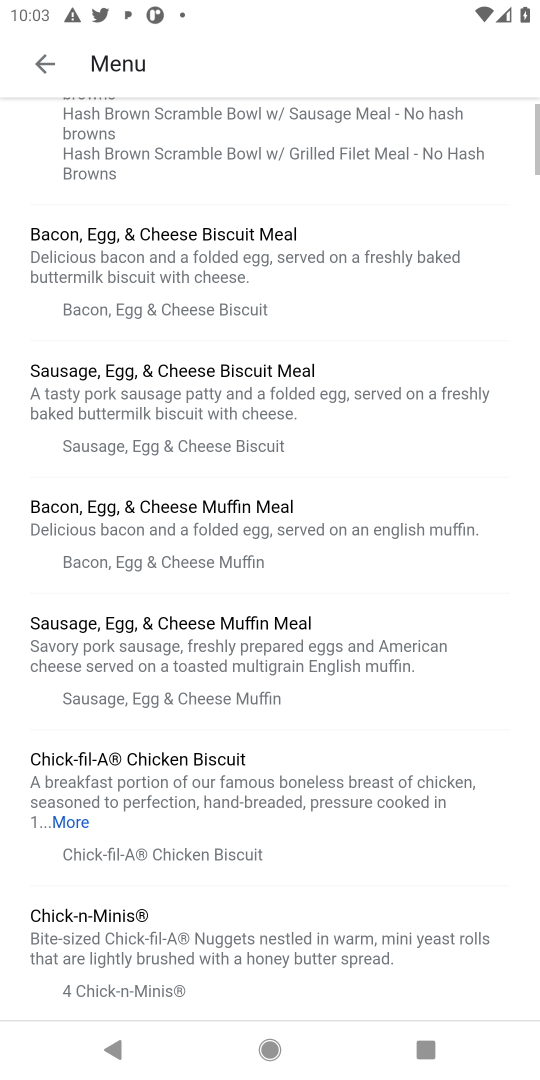
Step 55: drag from (238, 615) to (238, 411)
Your task to perform on an android device: What's on the menu at Chick-fil-A? Image 56: 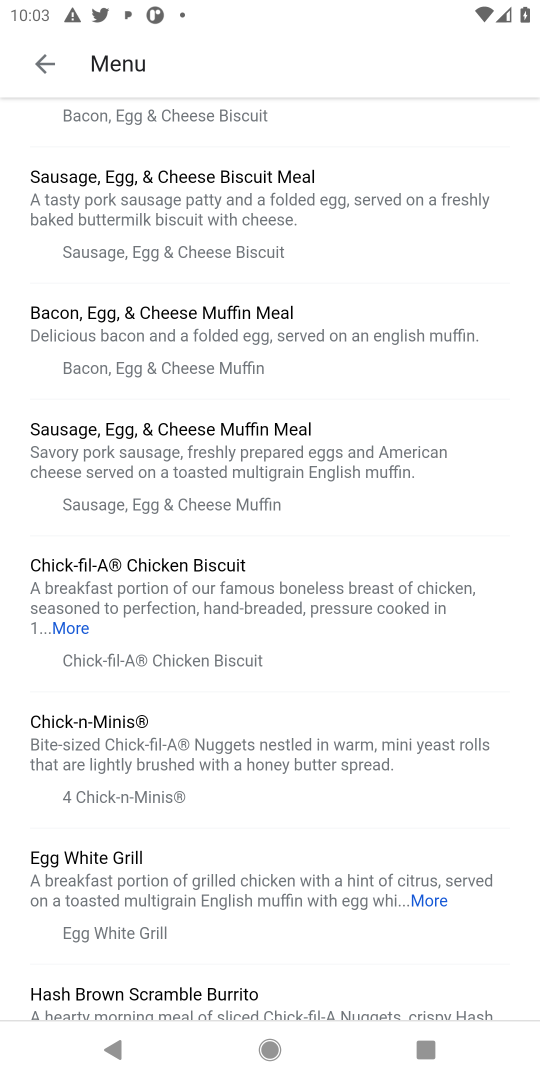
Step 56: drag from (296, 819) to (287, 422)
Your task to perform on an android device: What's on the menu at Chick-fil-A? Image 57: 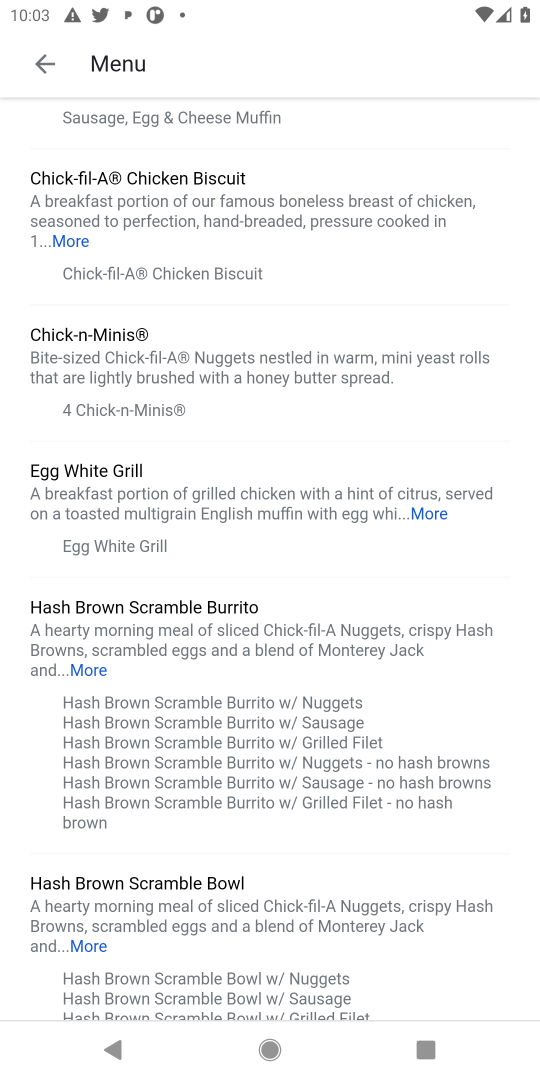
Step 57: drag from (270, 612) to (308, 386)
Your task to perform on an android device: What's on the menu at Chick-fil-A? Image 58: 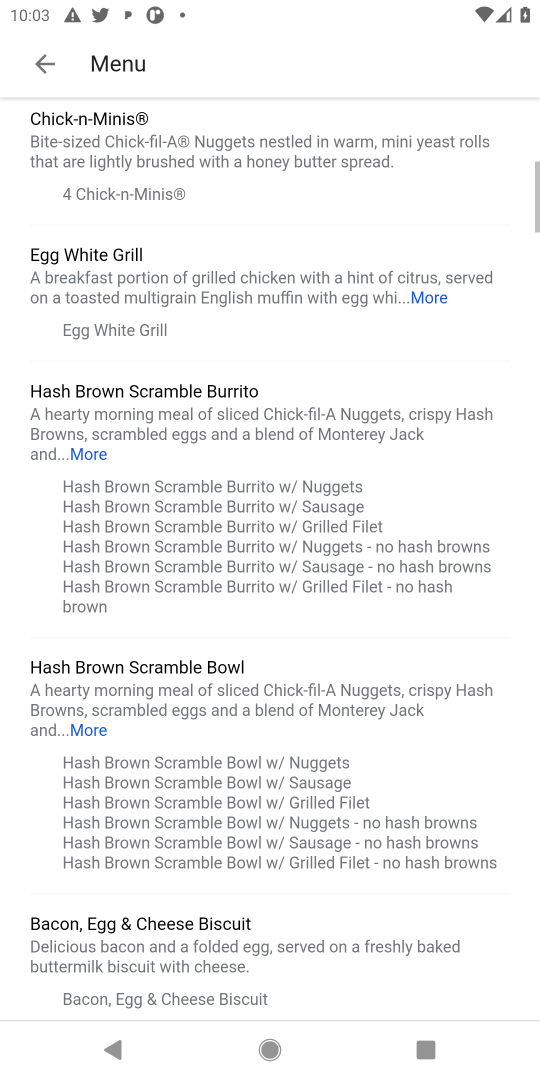
Step 58: drag from (313, 702) to (307, 195)
Your task to perform on an android device: What's on the menu at Chick-fil-A? Image 59: 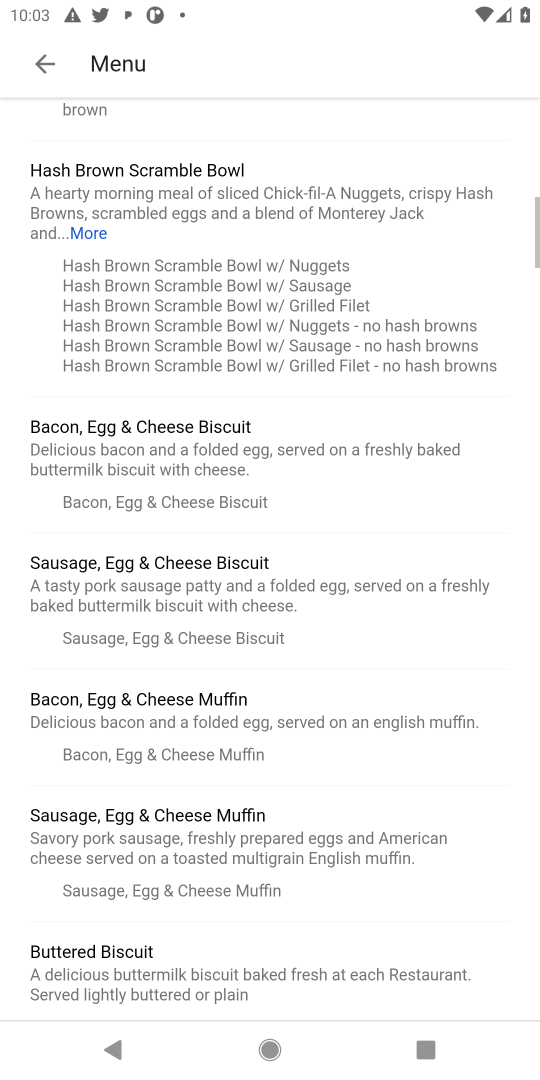
Step 59: drag from (292, 483) to (272, 215)
Your task to perform on an android device: What's on the menu at Chick-fil-A? Image 60: 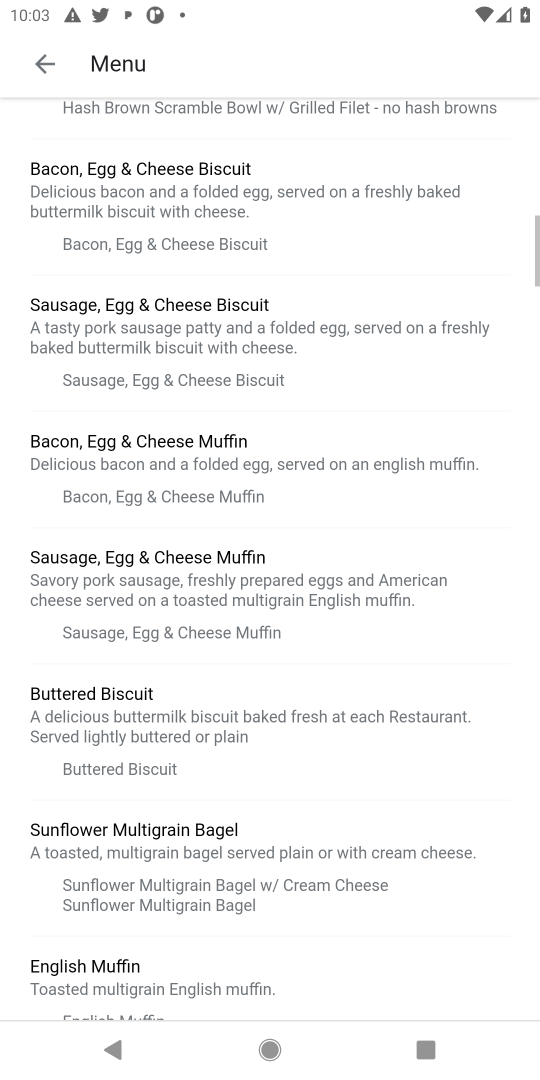
Step 60: drag from (236, 613) to (245, 213)
Your task to perform on an android device: What's on the menu at Chick-fil-A? Image 61: 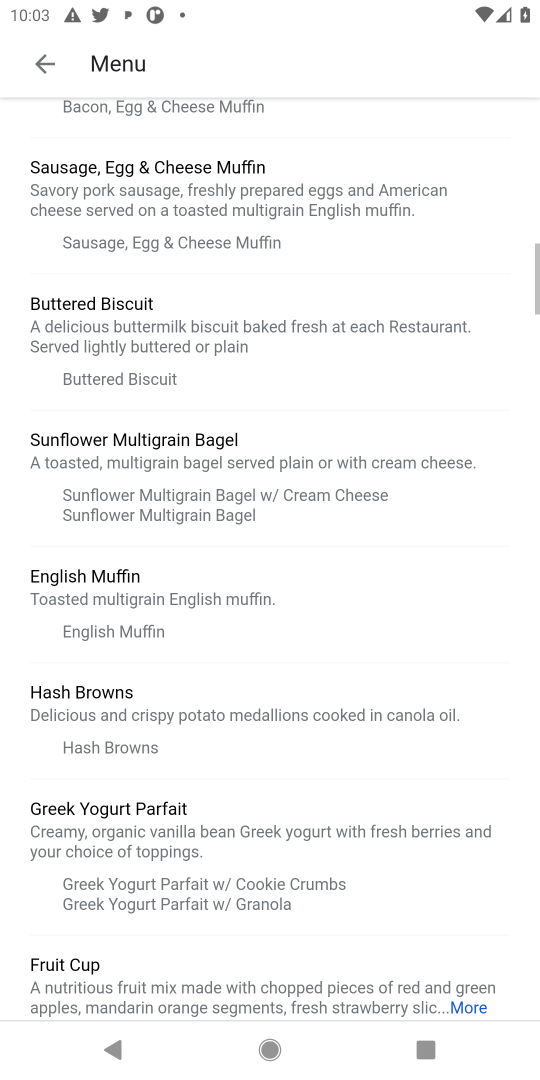
Step 61: drag from (185, 682) to (197, 294)
Your task to perform on an android device: What's on the menu at Chick-fil-A? Image 62: 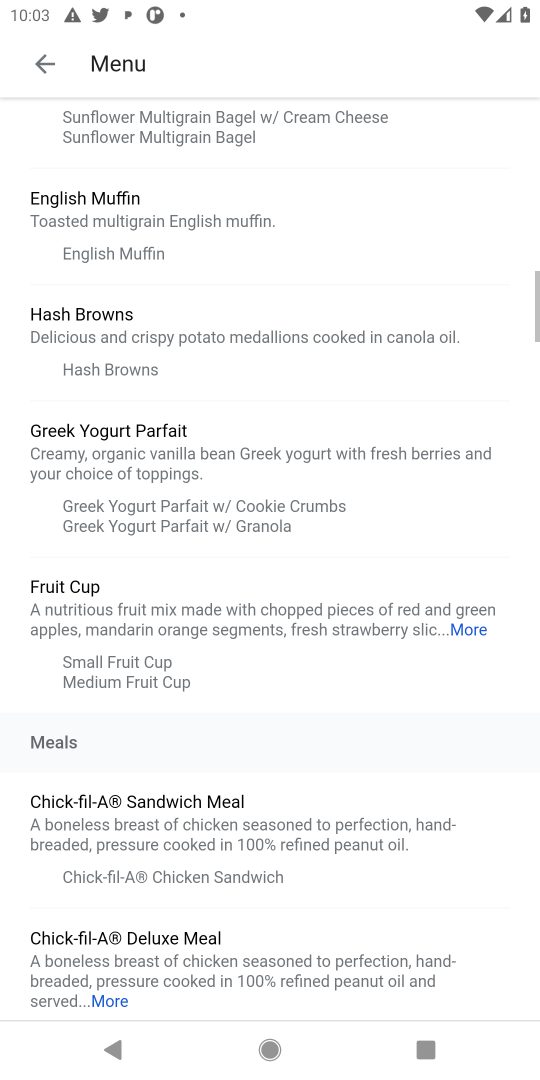
Step 62: drag from (234, 796) to (252, 422)
Your task to perform on an android device: What's on the menu at Chick-fil-A? Image 63: 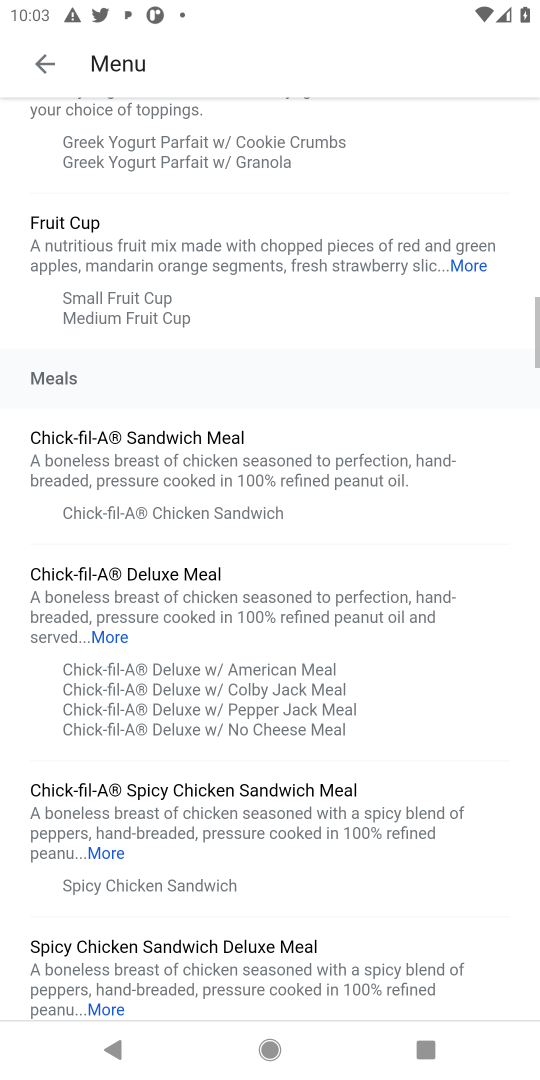
Step 63: drag from (318, 722) to (346, 293)
Your task to perform on an android device: What's on the menu at Chick-fil-A? Image 64: 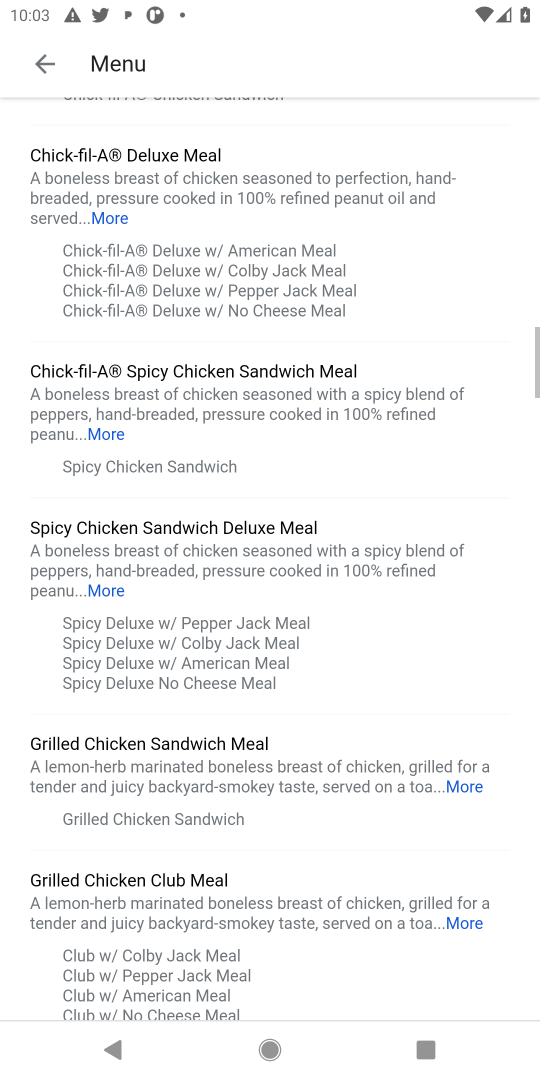
Step 64: drag from (370, 811) to (430, 366)
Your task to perform on an android device: What's on the menu at Chick-fil-A? Image 65: 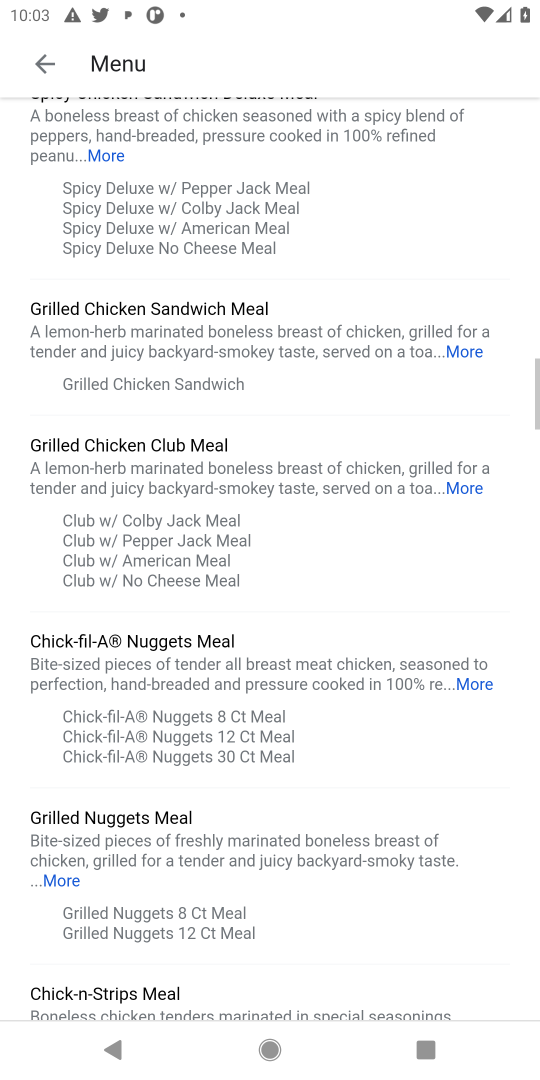
Step 65: drag from (423, 641) to (436, 381)
Your task to perform on an android device: What's on the menu at Chick-fil-A? Image 66: 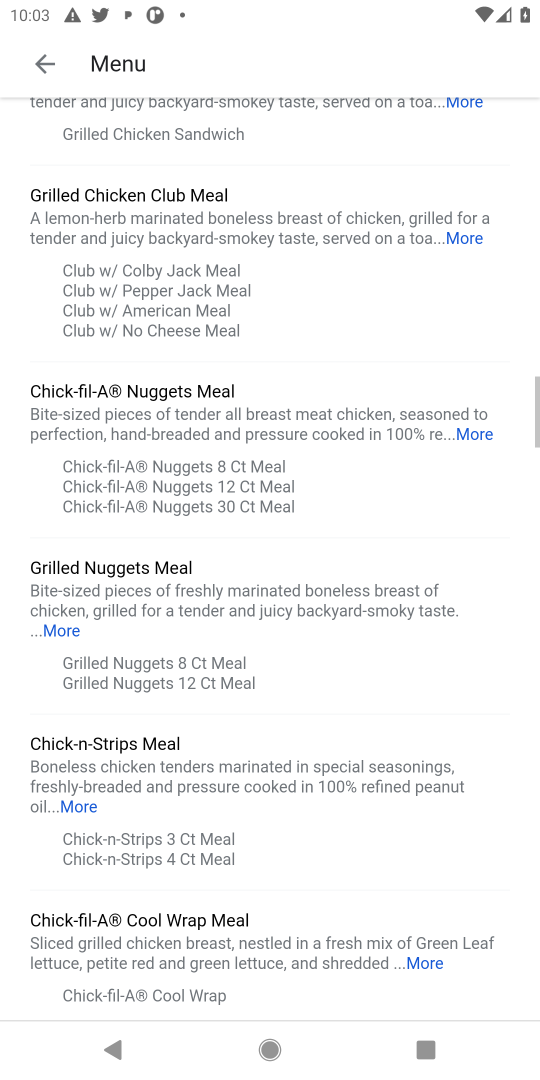
Step 66: drag from (398, 653) to (411, 362)
Your task to perform on an android device: What's on the menu at Chick-fil-A? Image 67: 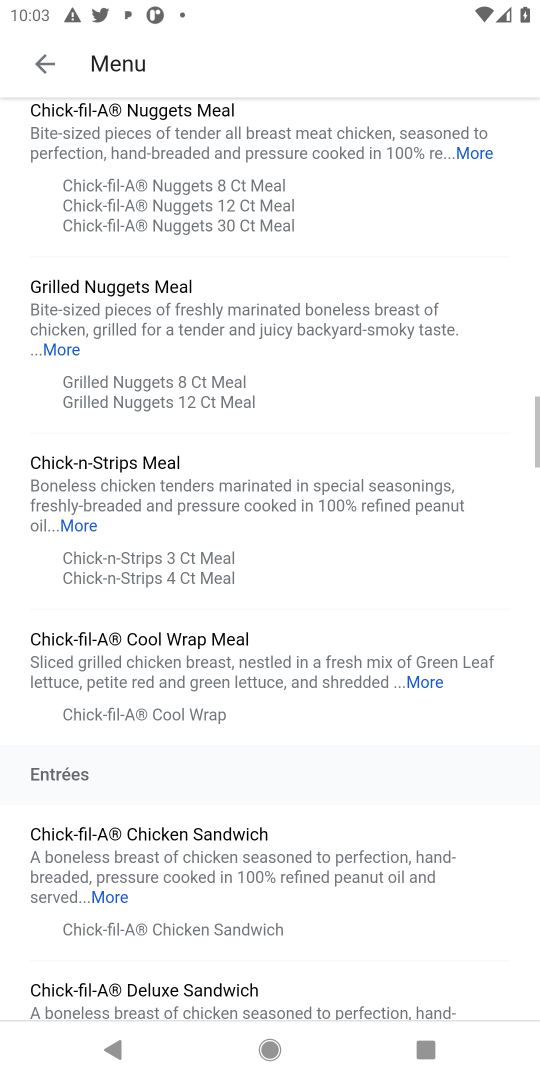
Step 67: drag from (367, 688) to (372, 391)
Your task to perform on an android device: What's on the menu at Chick-fil-A? Image 68: 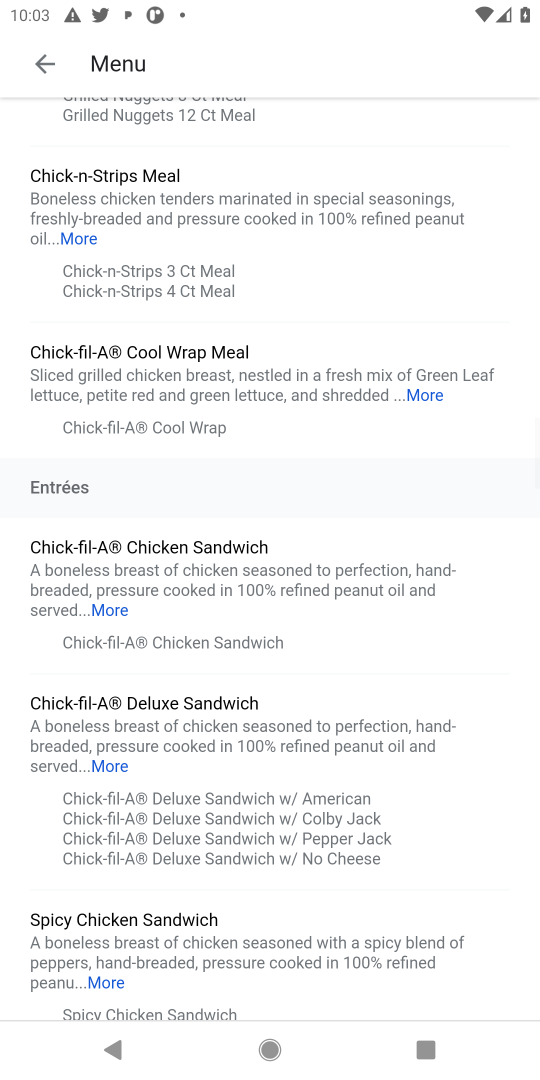
Step 68: drag from (309, 661) to (311, 343)
Your task to perform on an android device: What's on the menu at Chick-fil-A? Image 69: 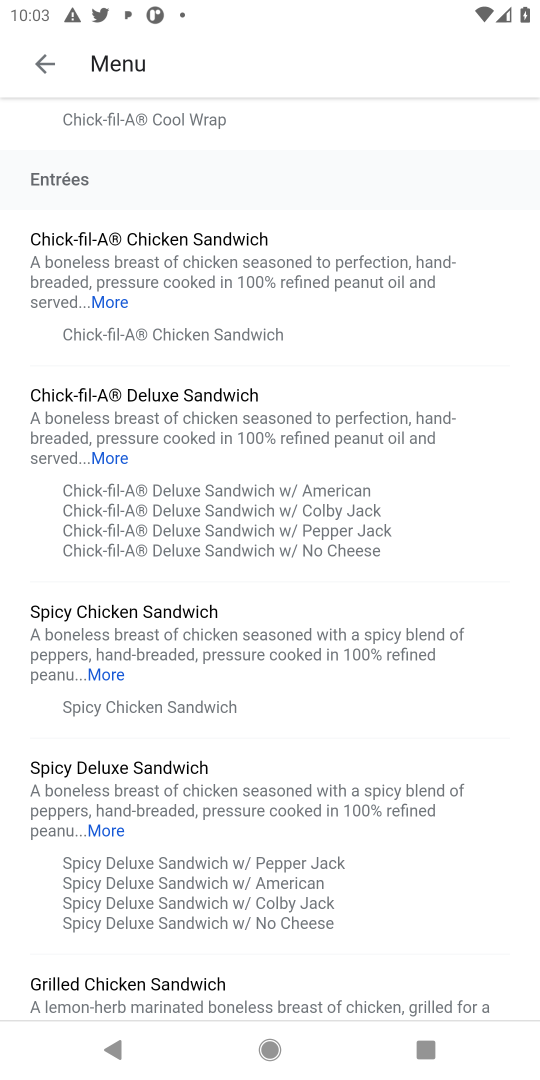
Step 69: drag from (372, 669) to (382, 211)
Your task to perform on an android device: What's on the menu at Chick-fil-A? Image 70: 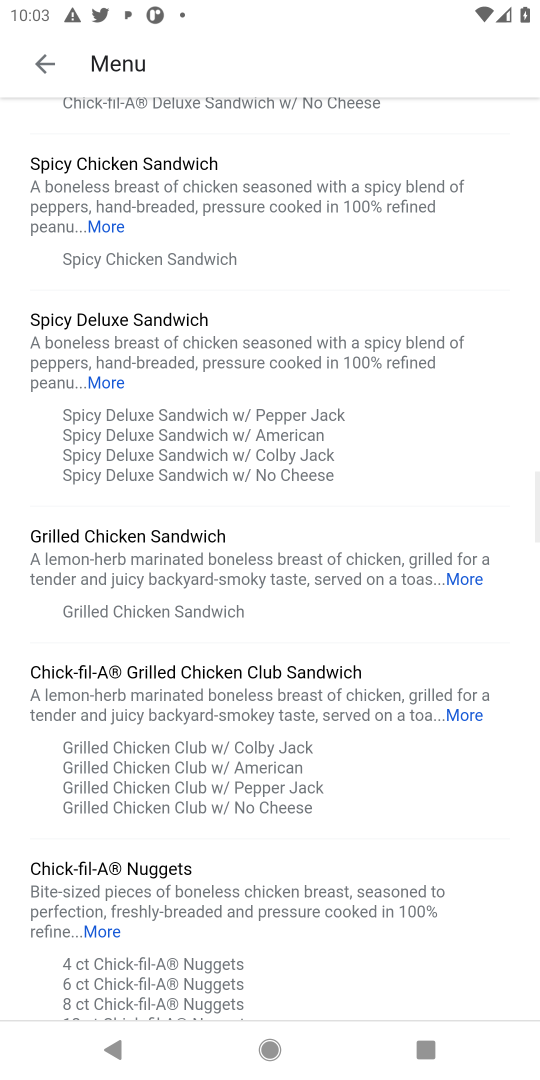
Step 70: drag from (362, 614) to (387, 238)
Your task to perform on an android device: What's on the menu at Chick-fil-A? Image 71: 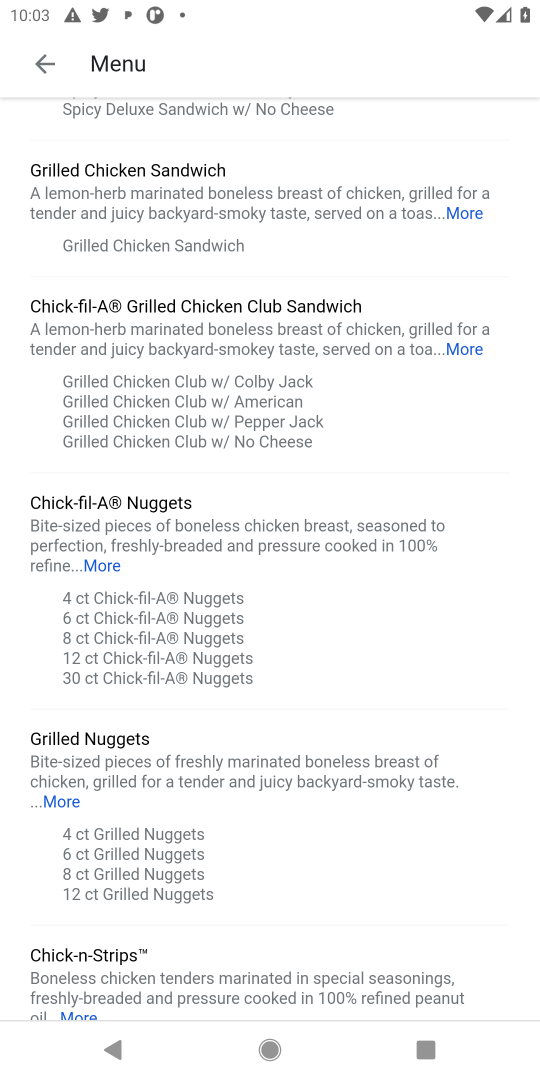
Step 71: drag from (394, 804) to (377, 270)
Your task to perform on an android device: What's on the menu at Chick-fil-A? Image 72: 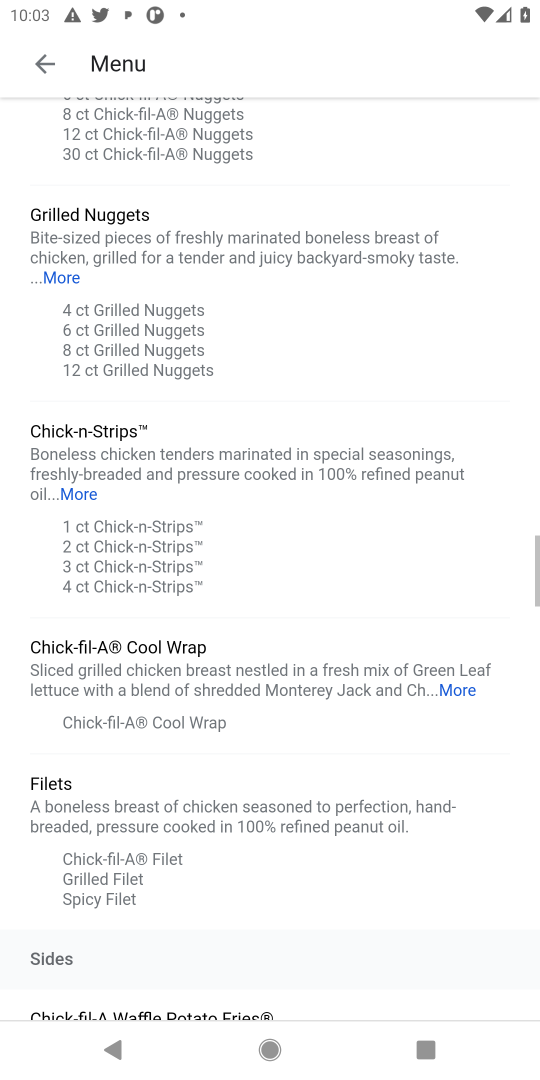
Step 72: drag from (376, 653) to (414, 203)
Your task to perform on an android device: What's on the menu at Chick-fil-A? Image 73: 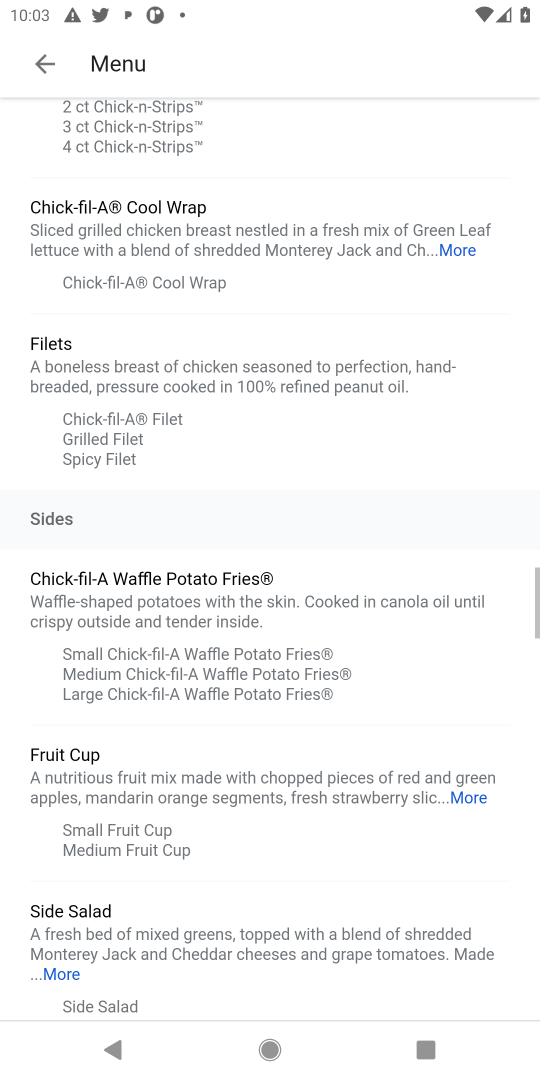
Step 73: drag from (355, 576) to (382, 221)
Your task to perform on an android device: What's on the menu at Chick-fil-A? Image 74: 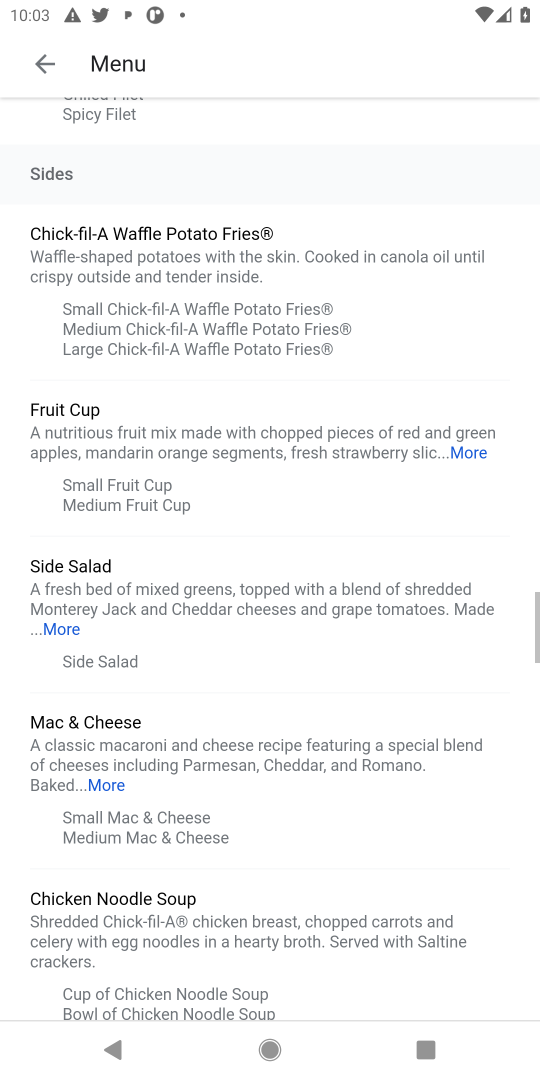
Step 74: drag from (327, 234) to (326, 60)
Your task to perform on an android device: What's on the menu at Chick-fil-A? Image 75: 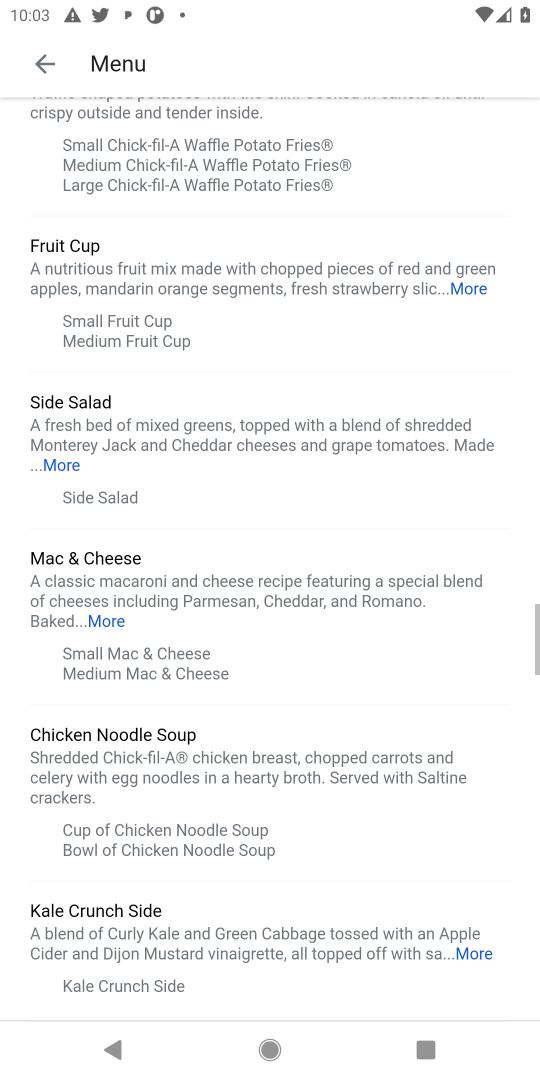
Step 75: drag from (384, 603) to (377, 405)
Your task to perform on an android device: What's on the menu at Chick-fil-A? Image 76: 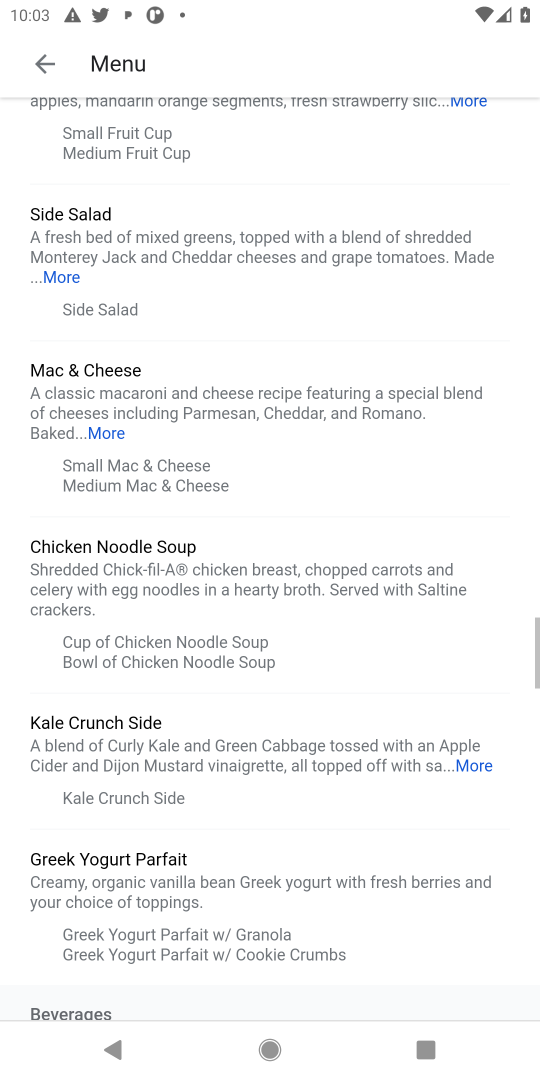
Step 76: drag from (306, 627) to (340, 263)
Your task to perform on an android device: What's on the menu at Chick-fil-A? Image 77: 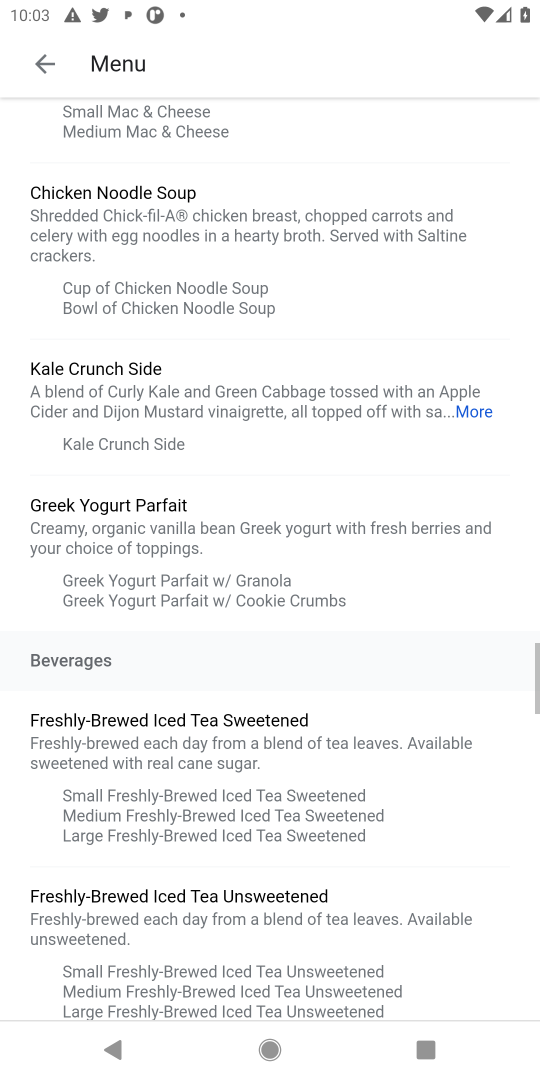
Step 77: click (276, 252)
Your task to perform on an android device: What's on the menu at Chick-fil-A? Image 78: 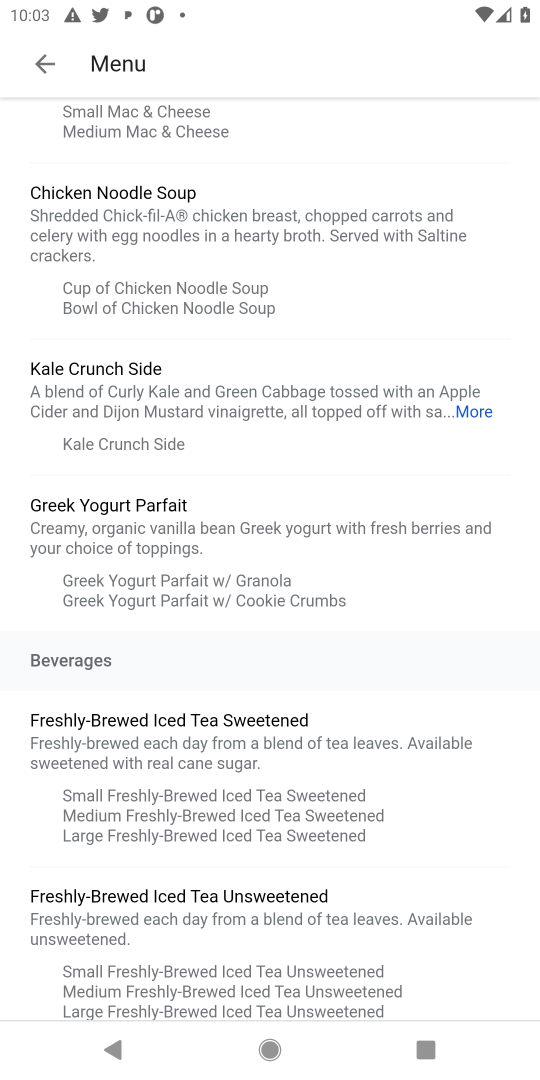
Step 78: task complete